Your task to perform on an android device: Clear the shopping cart on bestbuy.com. Add "bose quietcomfort 35" to the cart on bestbuy.com, then select checkout. Image 0: 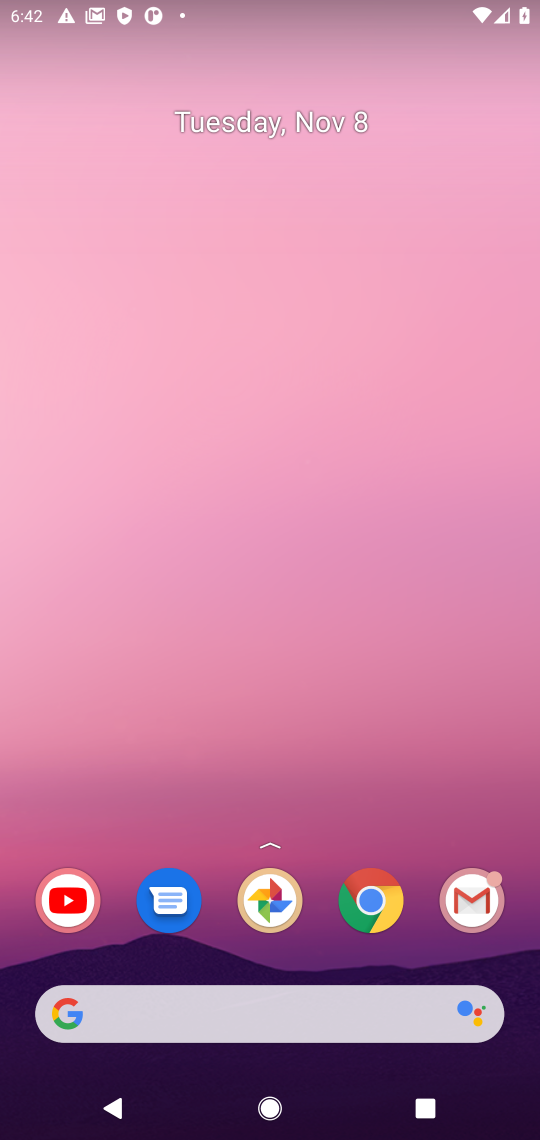
Step 0: click (396, 904)
Your task to perform on an android device: Clear the shopping cart on bestbuy.com. Add "bose quietcomfort 35" to the cart on bestbuy.com, then select checkout. Image 1: 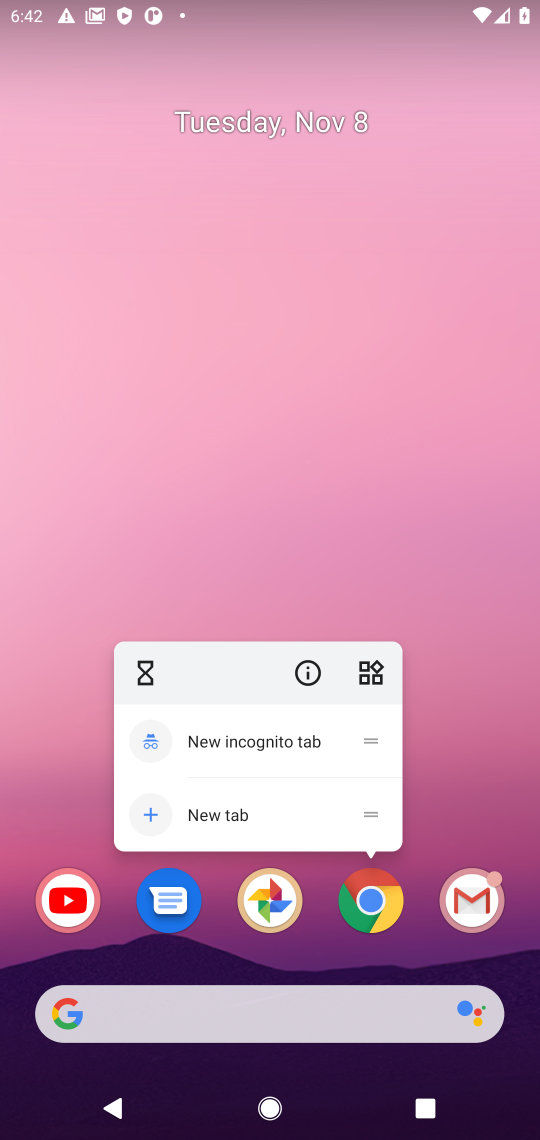
Step 1: click (426, 897)
Your task to perform on an android device: Clear the shopping cart on bestbuy.com. Add "bose quietcomfort 35" to the cart on bestbuy.com, then select checkout. Image 2: 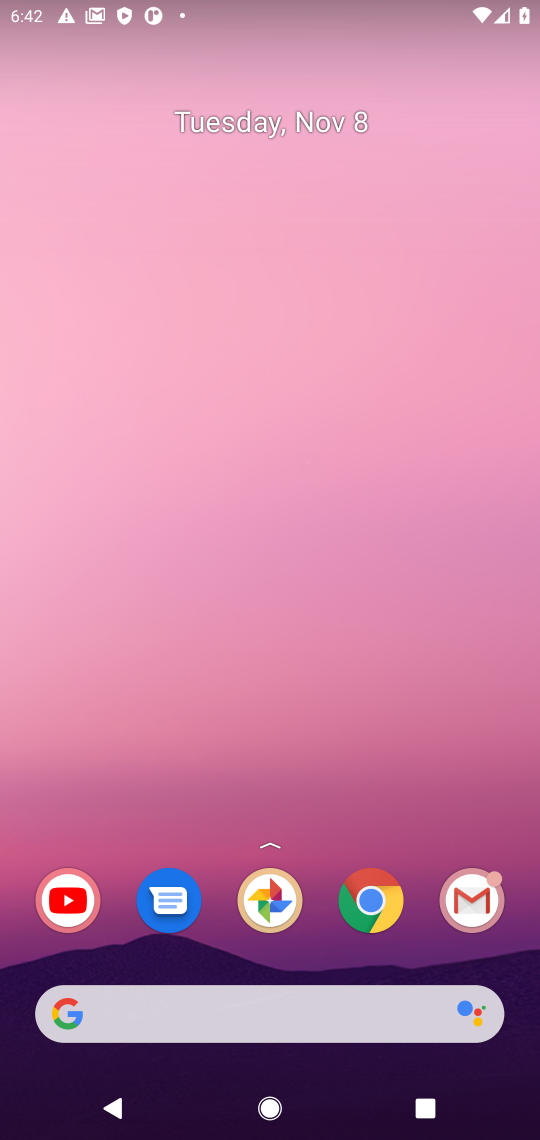
Step 2: click (371, 919)
Your task to perform on an android device: Clear the shopping cart on bestbuy.com. Add "bose quietcomfort 35" to the cart on bestbuy.com, then select checkout. Image 3: 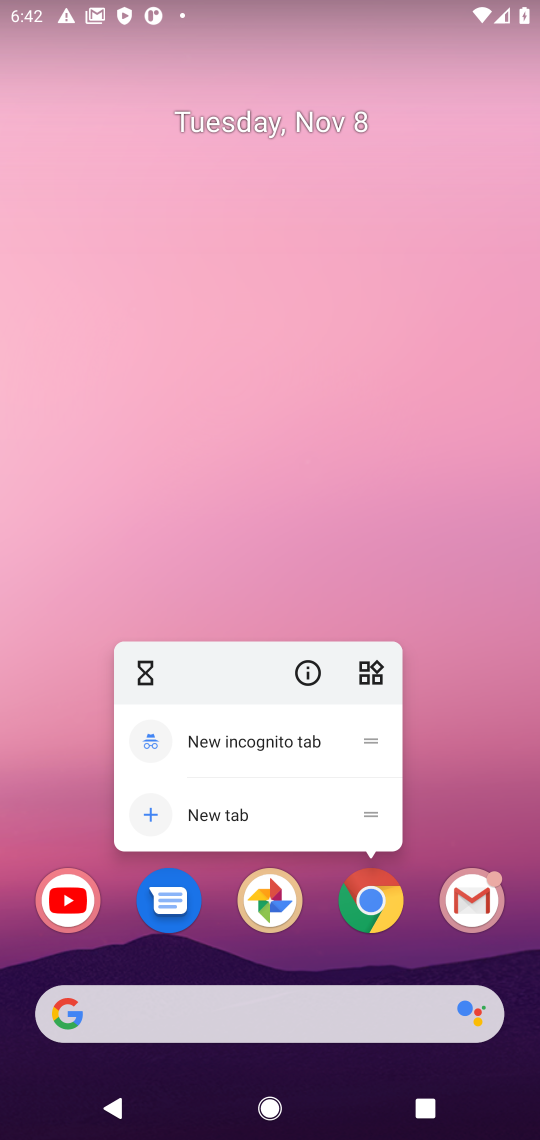
Step 3: click (347, 907)
Your task to perform on an android device: Clear the shopping cart on bestbuy.com. Add "bose quietcomfort 35" to the cart on bestbuy.com, then select checkout. Image 4: 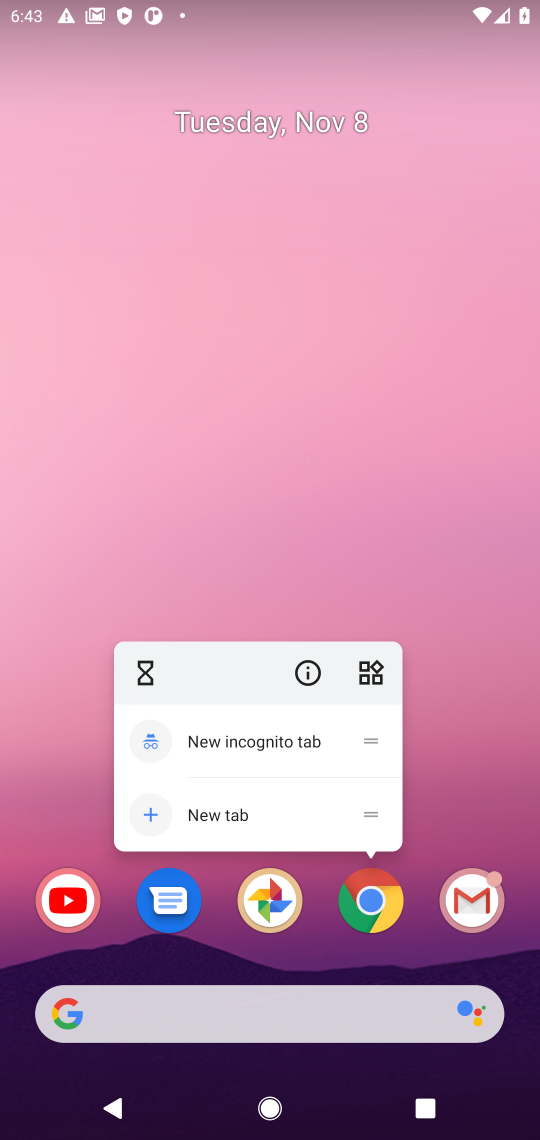
Step 4: click (361, 907)
Your task to perform on an android device: Clear the shopping cart on bestbuy.com. Add "bose quietcomfort 35" to the cart on bestbuy.com, then select checkout. Image 5: 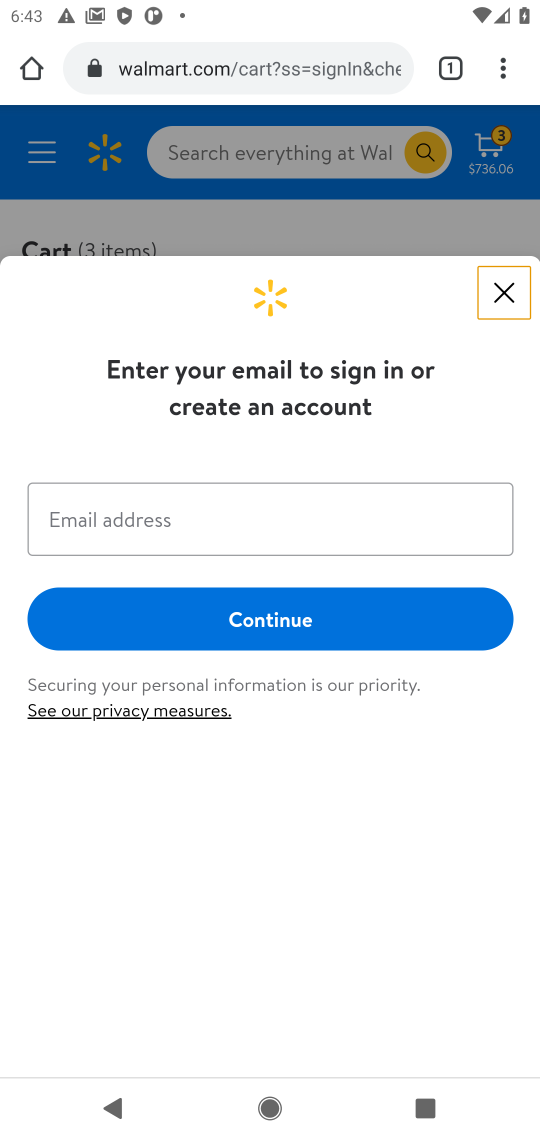
Step 5: click (503, 286)
Your task to perform on an android device: Clear the shopping cart on bestbuy.com. Add "bose quietcomfort 35" to the cart on bestbuy.com, then select checkout. Image 6: 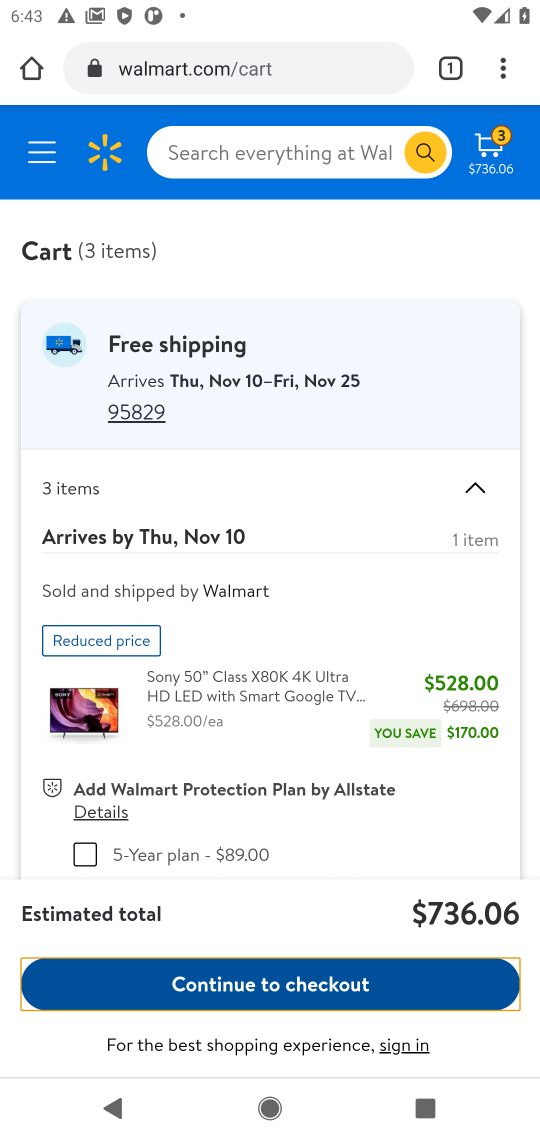
Step 6: click (237, 74)
Your task to perform on an android device: Clear the shopping cart on bestbuy.com. Add "bose quietcomfort 35" to the cart on bestbuy.com, then select checkout. Image 7: 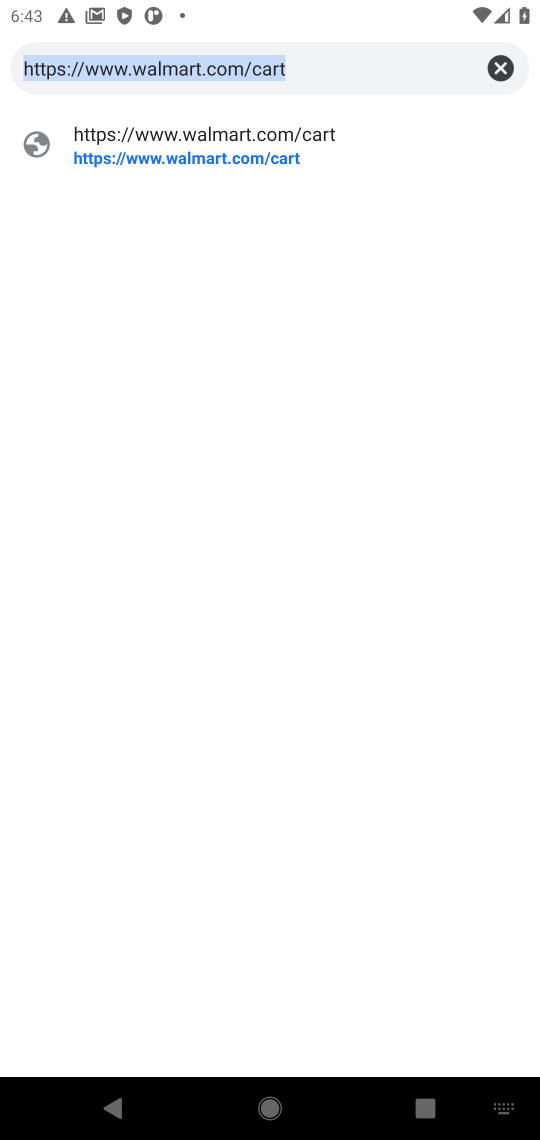
Step 7: type "bestbuy"
Your task to perform on an android device: Clear the shopping cart on bestbuy.com. Add "bose quietcomfort 35" to the cart on bestbuy.com, then select checkout. Image 8: 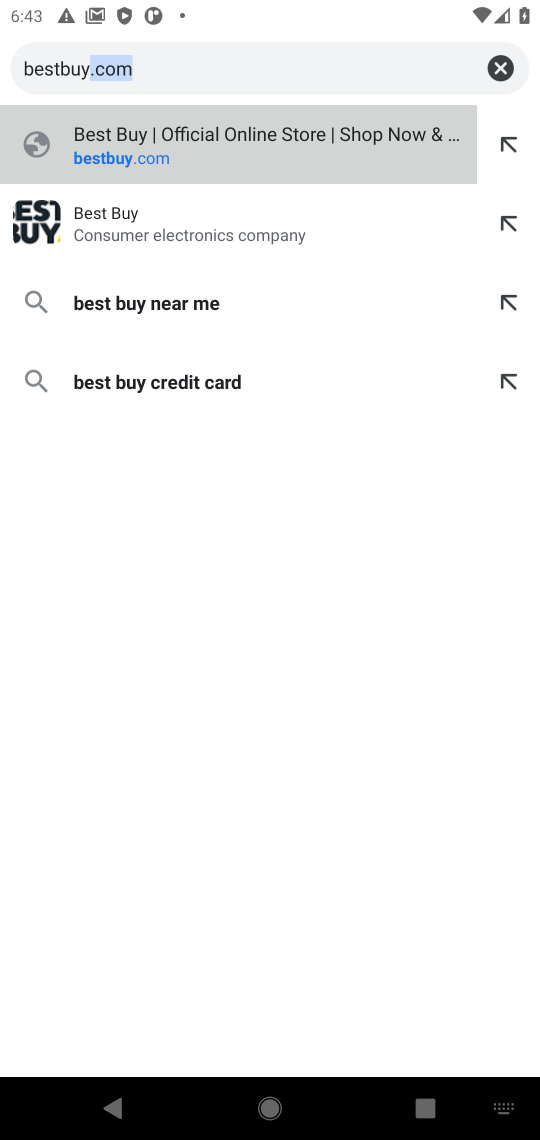
Step 8: type ""
Your task to perform on an android device: Clear the shopping cart on bestbuy.com. Add "bose quietcomfort 35" to the cart on bestbuy.com, then select checkout. Image 9: 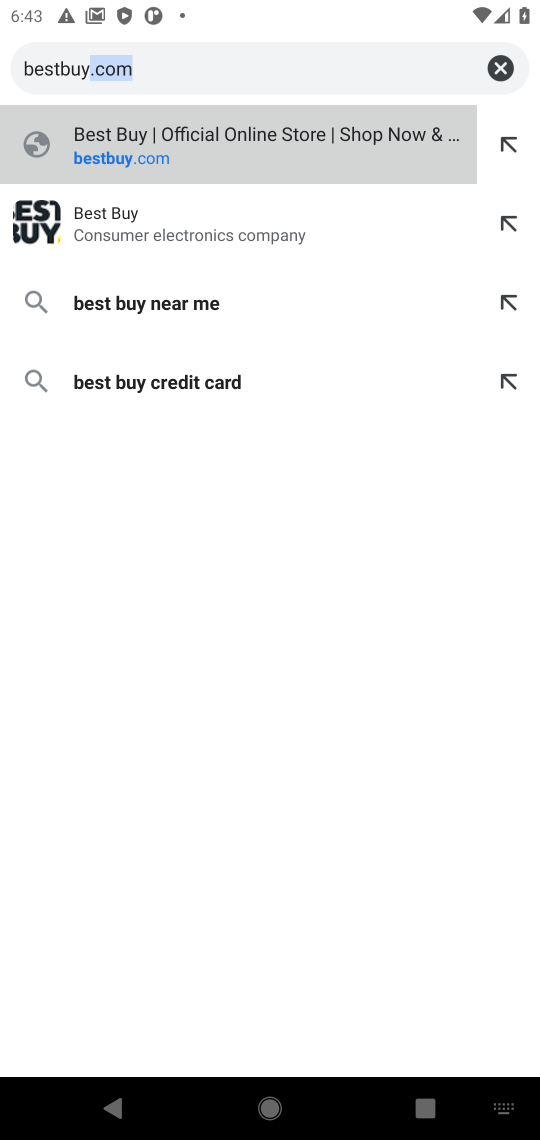
Step 9: click (127, 230)
Your task to perform on an android device: Clear the shopping cart on bestbuy.com. Add "bose quietcomfort 35" to the cart on bestbuy.com, then select checkout. Image 10: 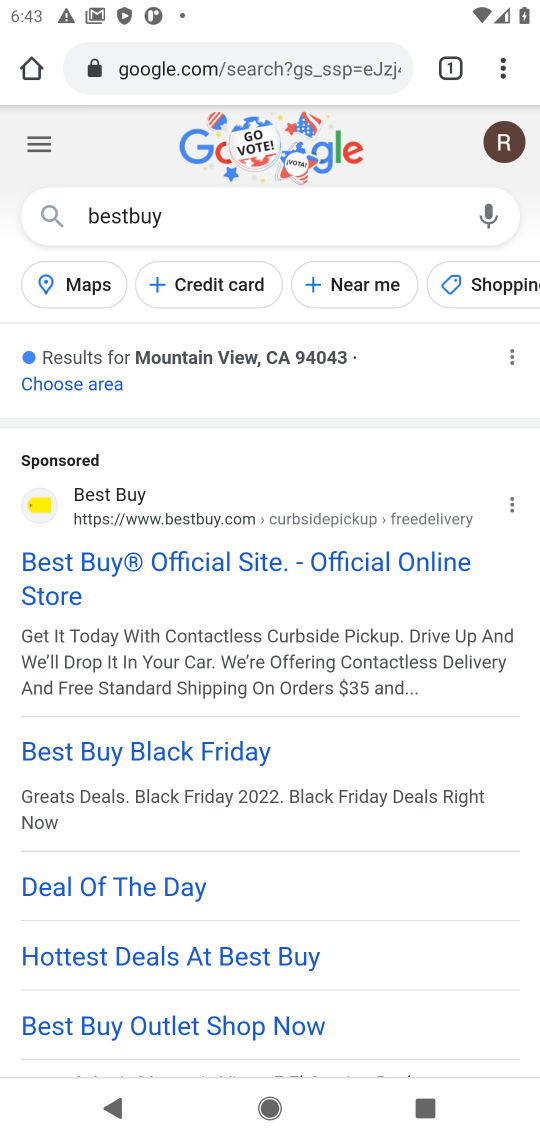
Step 10: drag from (119, 852) to (180, 294)
Your task to perform on an android device: Clear the shopping cart on bestbuy.com. Add "bose quietcomfort 35" to the cart on bestbuy.com, then select checkout. Image 11: 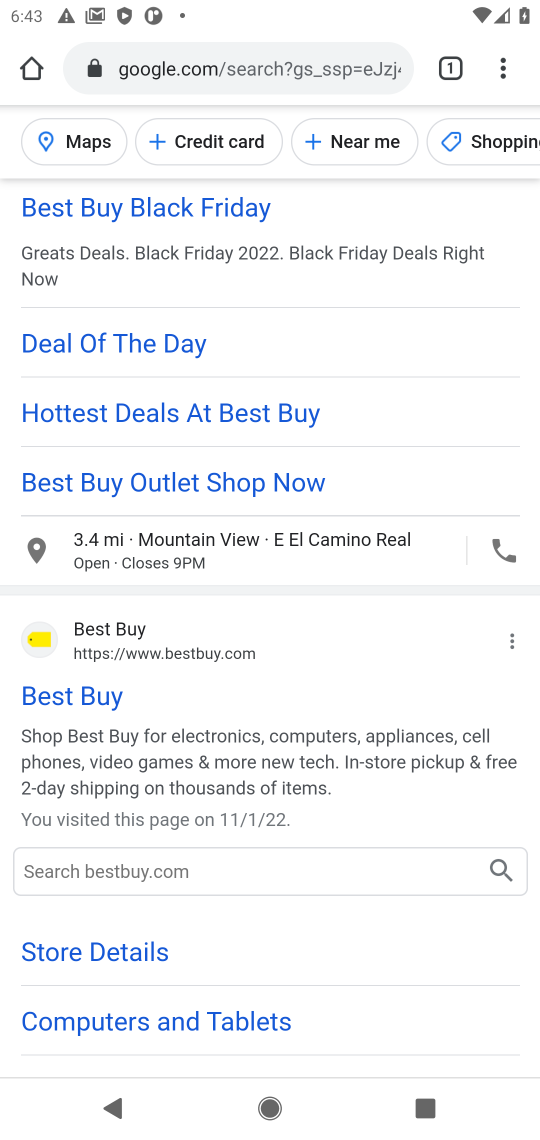
Step 11: click (77, 689)
Your task to perform on an android device: Clear the shopping cart on bestbuy.com. Add "bose quietcomfort 35" to the cart on bestbuy.com, then select checkout. Image 12: 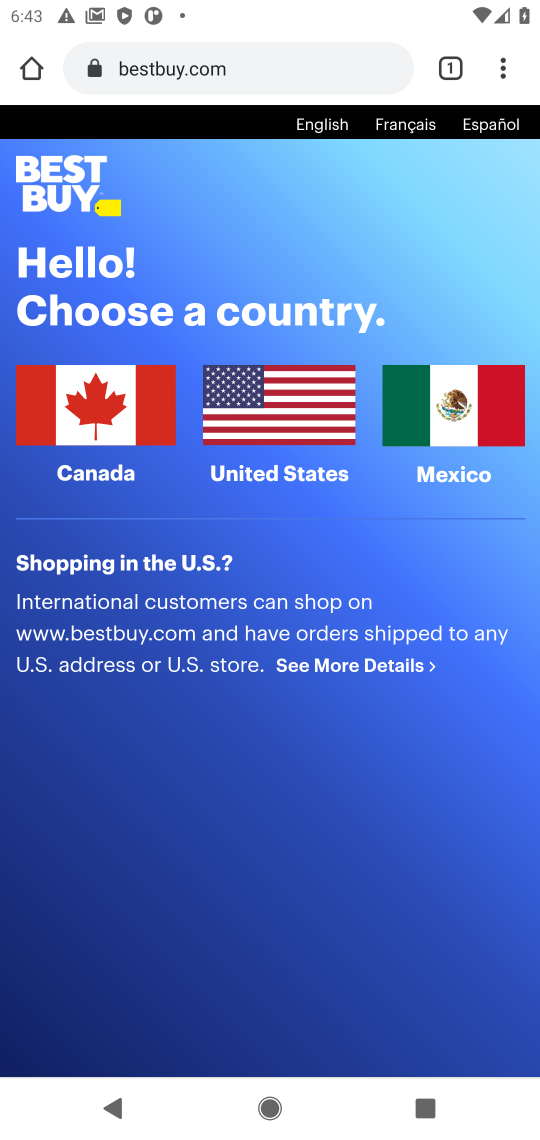
Step 12: click (254, 421)
Your task to perform on an android device: Clear the shopping cart on bestbuy.com. Add "bose quietcomfort 35" to the cart on bestbuy.com, then select checkout. Image 13: 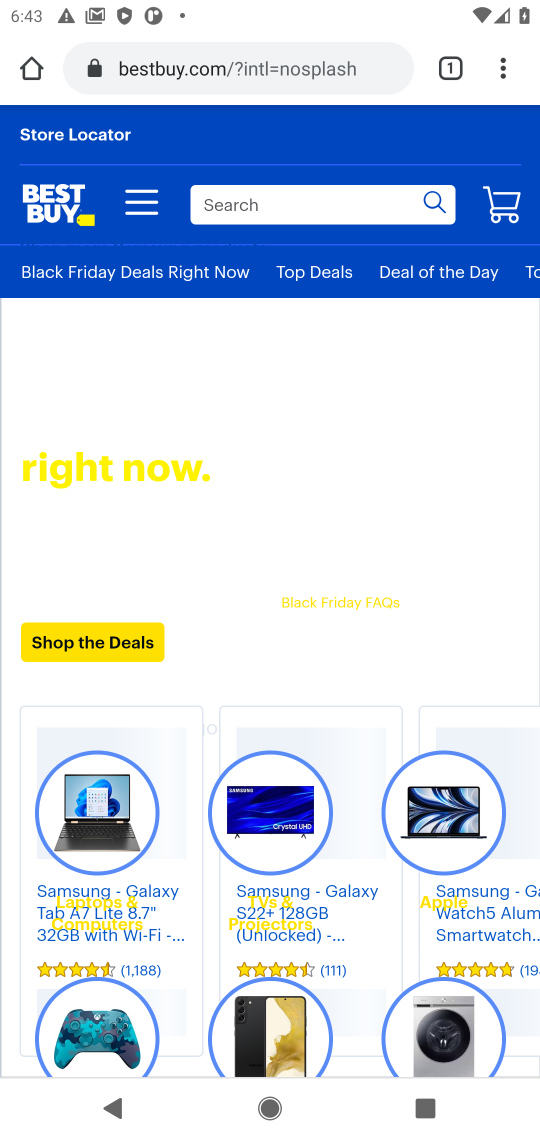
Step 13: click (254, 206)
Your task to perform on an android device: Clear the shopping cart on bestbuy.com. Add "bose quietcomfort 35" to the cart on bestbuy.com, then select checkout. Image 14: 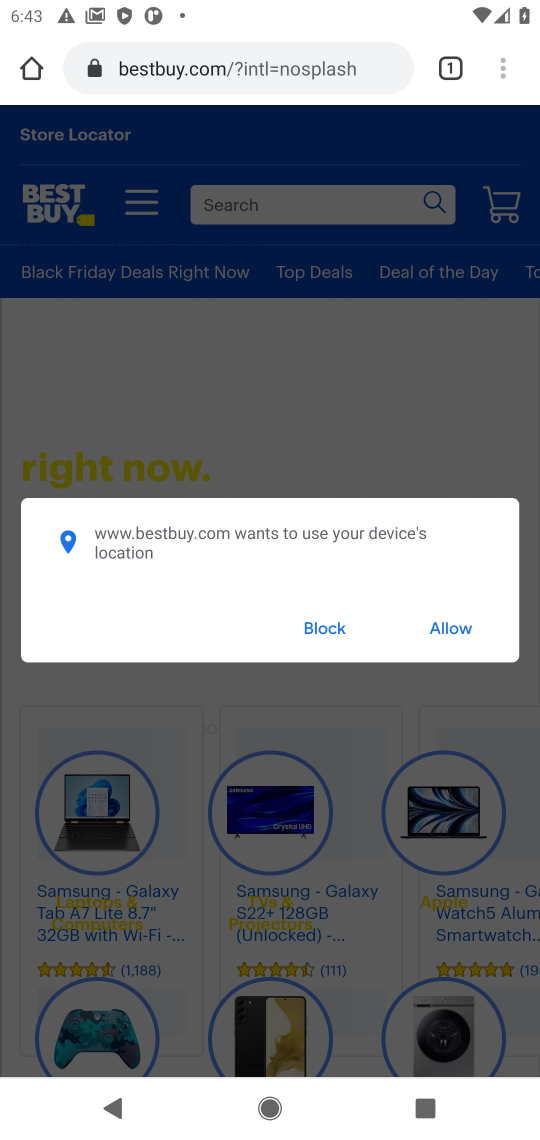
Step 14: type "bose eq"
Your task to perform on an android device: Clear the shopping cart on bestbuy.com. Add "bose quietcomfort 35" to the cart on bestbuy.com, then select checkout. Image 15: 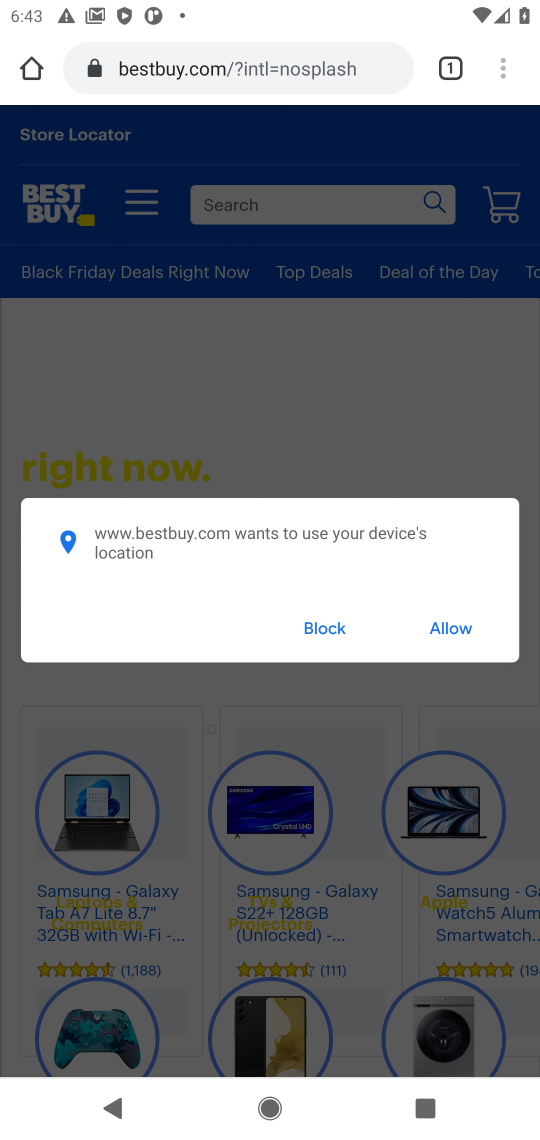
Step 15: click (443, 622)
Your task to perform on an android device: Clear the shopping cart on bestbuy.com. Add "bose quietcomfort 35" to the cart on bestbuy.com, then select checkout. Image 16: 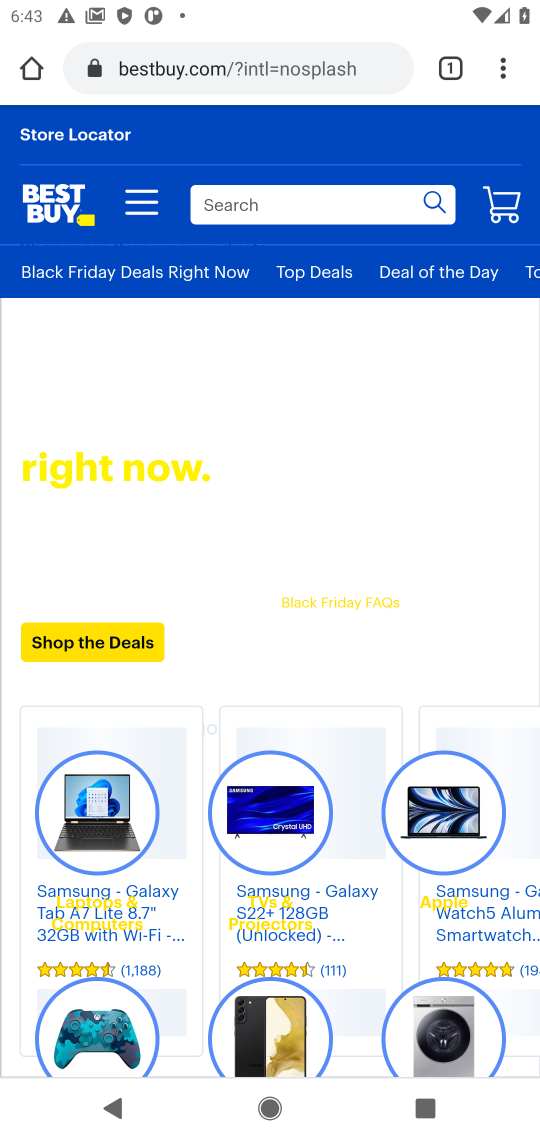
Step 16: click (438, 628)
Your task to perform on an android device: Clear the shopping cart on bestbuy.com. Add "bose quietcomfort 35" to the cart on bestbuy.com, then select checkout. Image 17: 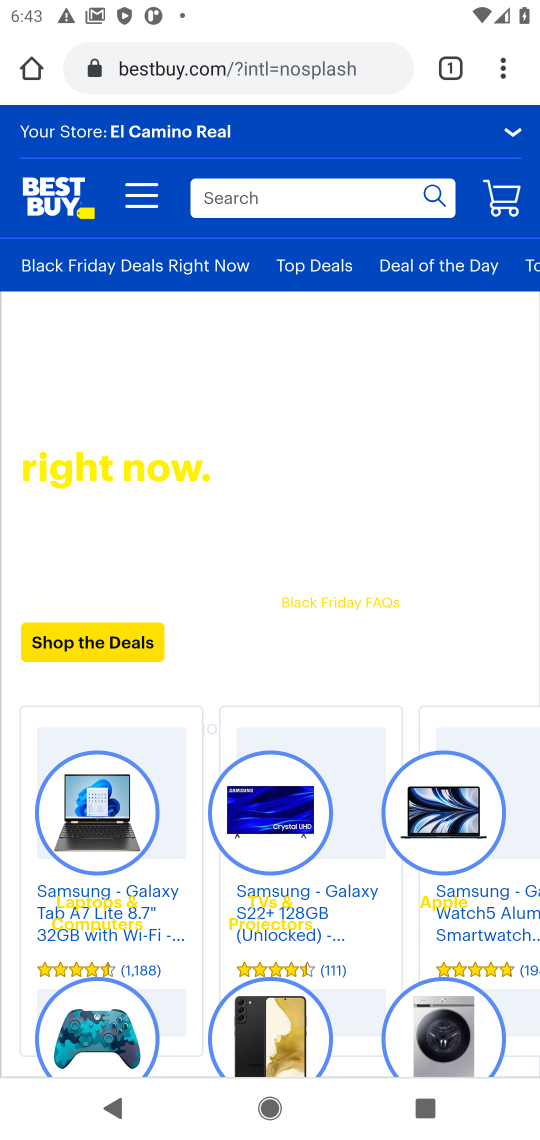
Step 17: click (207, 196)
Your task to perform on an android device: Clear the shopping cart on bestbuy.com. Add "bose quietcomfort 35" to the cart on bestbuy.com, then select checkout. Image 18: 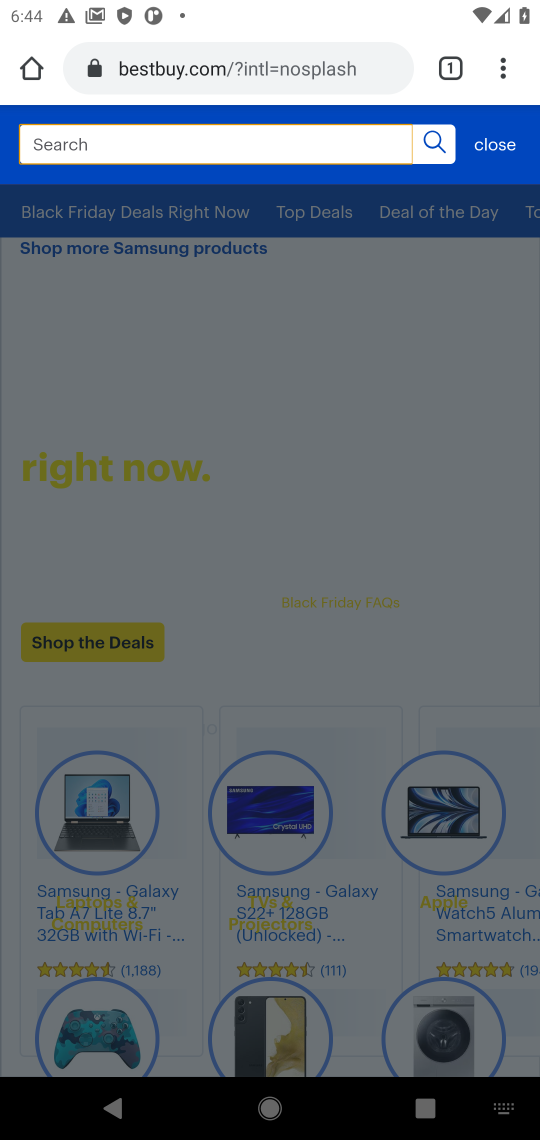
Step 18: type "bose quietcomfort 35"
Your task to perform on an android device: Clear the shopping cart on bestbuy.com. Add "bose quietcomfort 35" to the cart on bestbuy.com, then select checkout. Image 19: 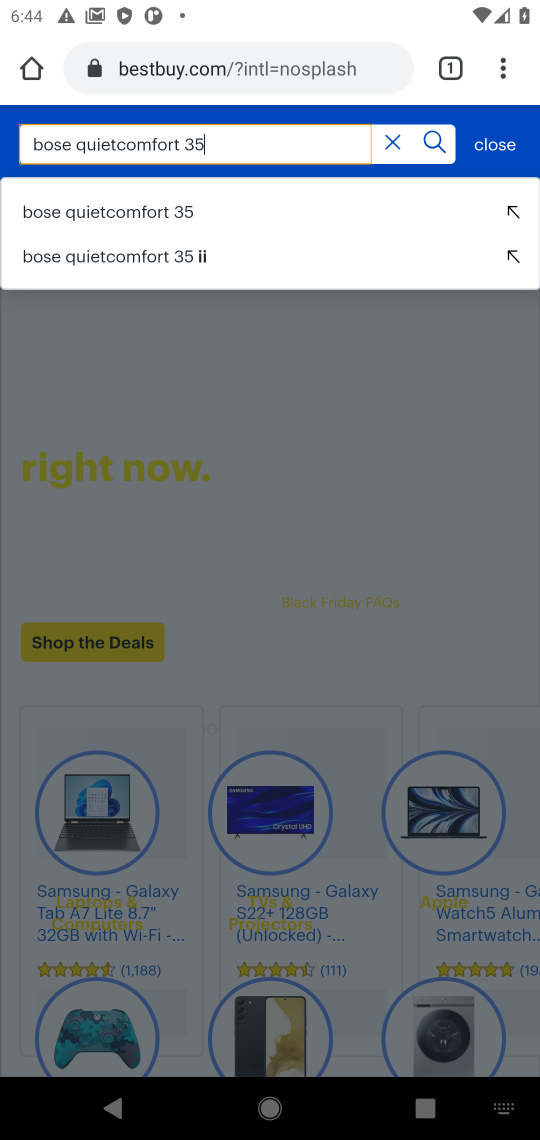
Step 19: click (110, 212)
Your task to perform on an android device: Clear the shopping cart on bestbuy.com. Add "bose quietcomfort 35" to the cart on bestbuy.com, then select checkout. Image 20: 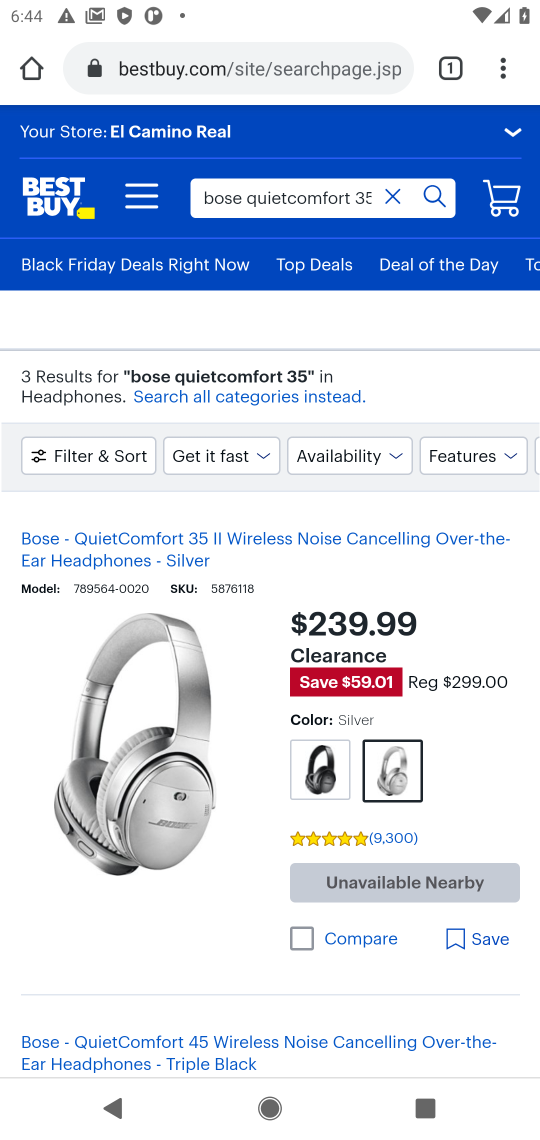
Step 20: drag from (154, 790) to (338, 530)
Your task to perform on an android device: Clear the shopping cart on bestbuy.com. Add "bose quietcomfort 35" to the cart on bestbuy.com, then select checkout. Image 21: 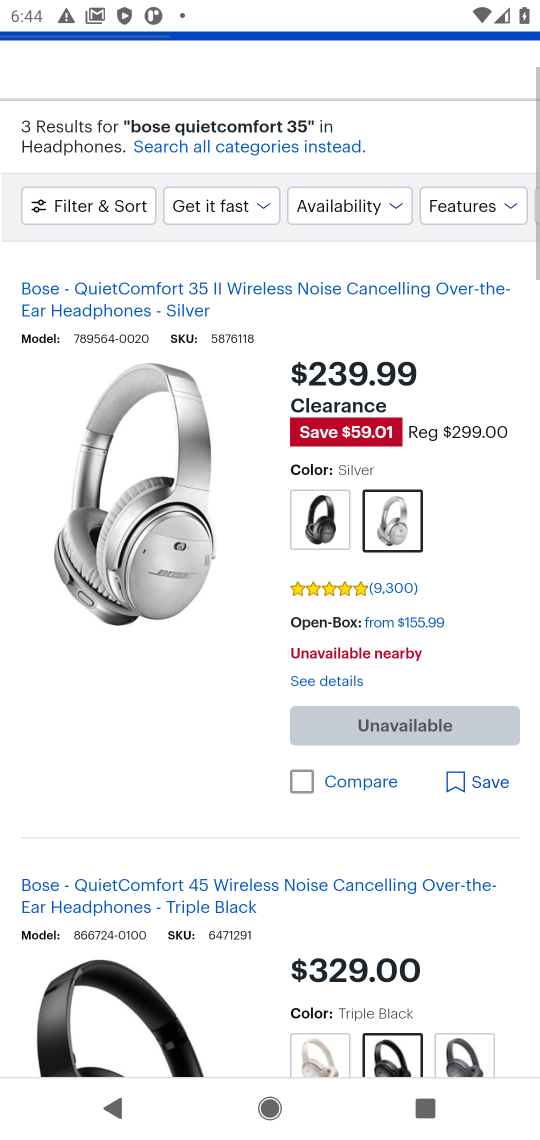
Step 21: click (124, 483)
Your task to perform on an android device: Clear the shopping cart on bestbuy.com. Add "bose quietcomfort 35" to the cart on bestbuy.com, then select checkout. Image 22: 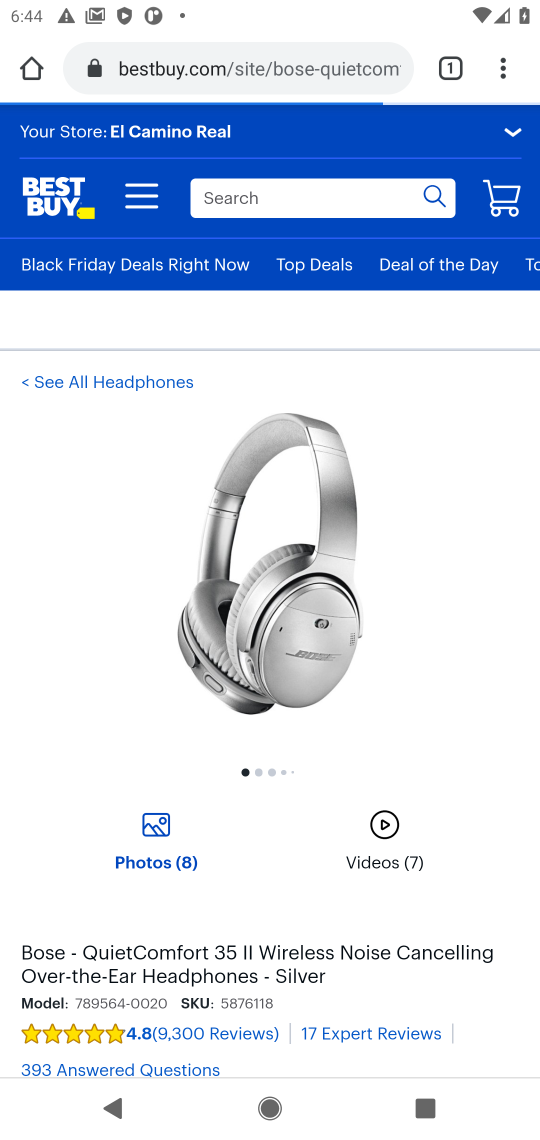
Step 22: drag from (274, 851) to (397, 356)
Your task to perform on an android device: Clear the shopping cart on bestbuy.com. Add "bose quietcomfort 35" to the cart on bestbuy.com, then select checkout. Image 23: 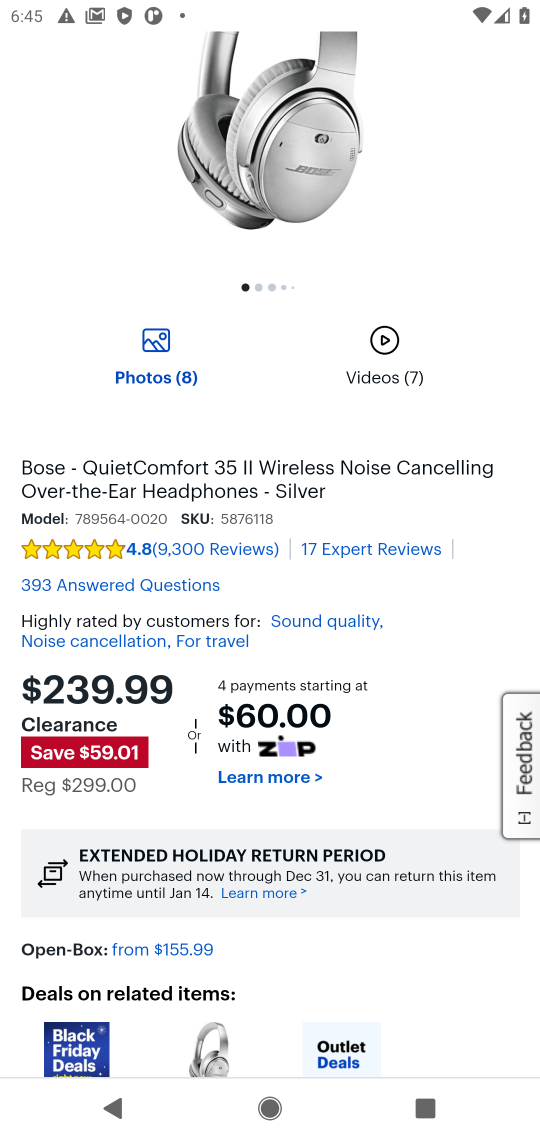
Step 23: drag from (289, 970) to (339, 360)
Your task to perform on an android device: Clear the shopping cart on bestbuy.com. Add "bose quietcomfort 35" to the cart on bestbuy.com, then select checkout. Image 24: 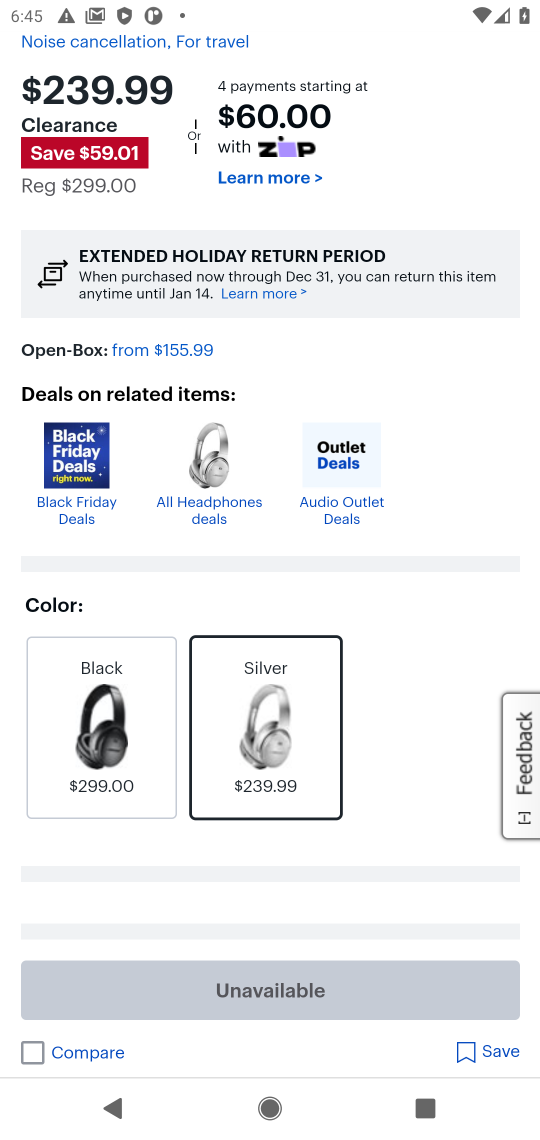
Step 24: drag from (297, 913) to (384, 314)
Your task to perform on an android device: Clear the shopping cart on bestbuy.com. Add "bose quietcomfort 35" to the cart on bestbuy.com, then select checkout. Image 25: 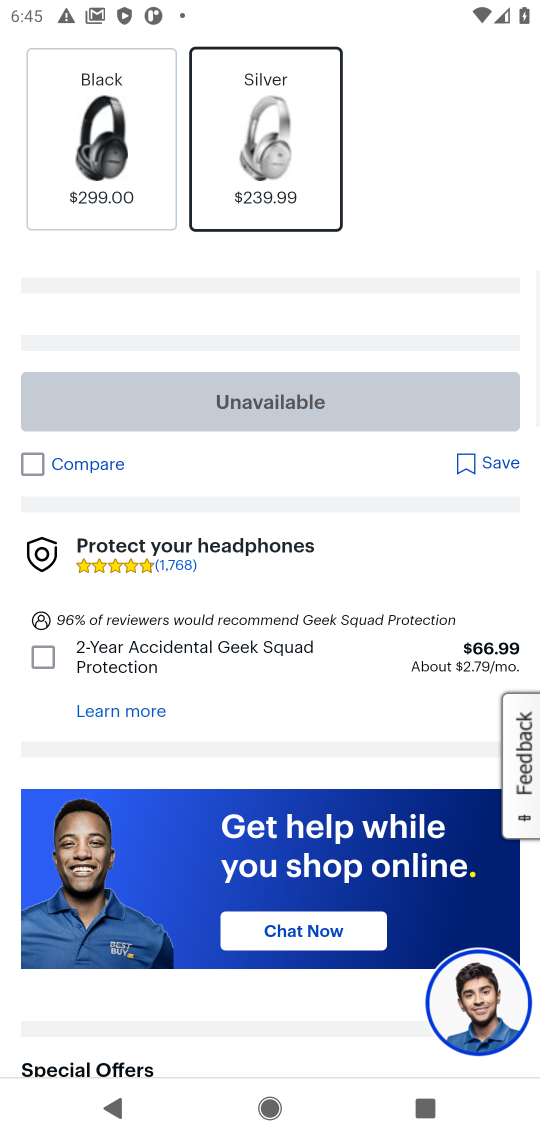
Step 25: drag from (409, 340) to (441, 892)
Your task to perform on an android device: Clear the shopping cart on bestbuy.com. Add "bose quietcomfort 35" to the cart on bestbuy.com, then select checkout. Image 26: 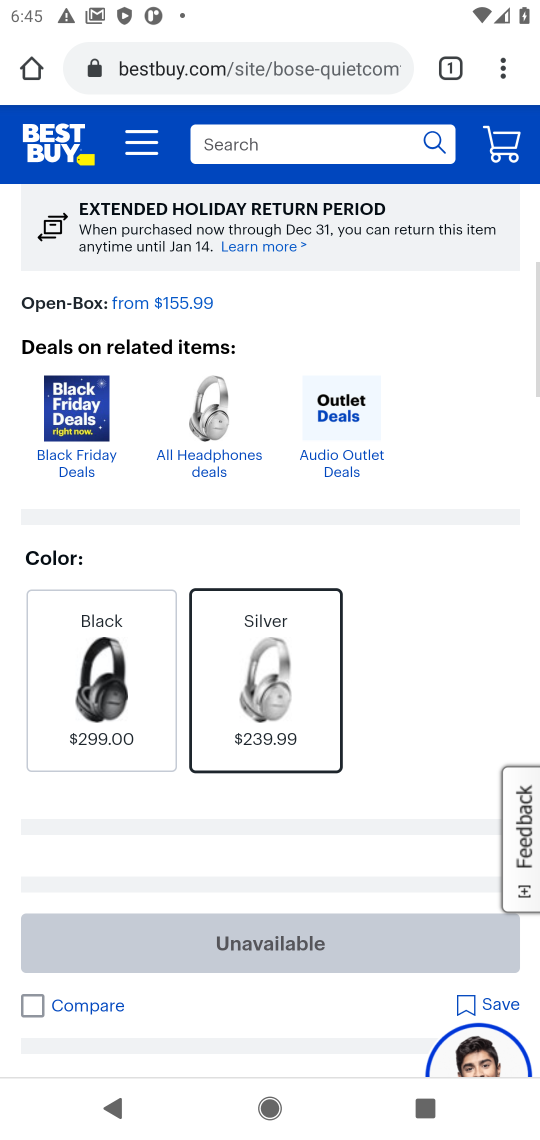
Step 26: drag from (300, 400) to (254, 920)
Your task to perform on an android device: Clear the shopping cart on bestbuy.com. Add "bose quietcomfort 35" to the cart on bestbuy.com, then select checkout. Image 27: 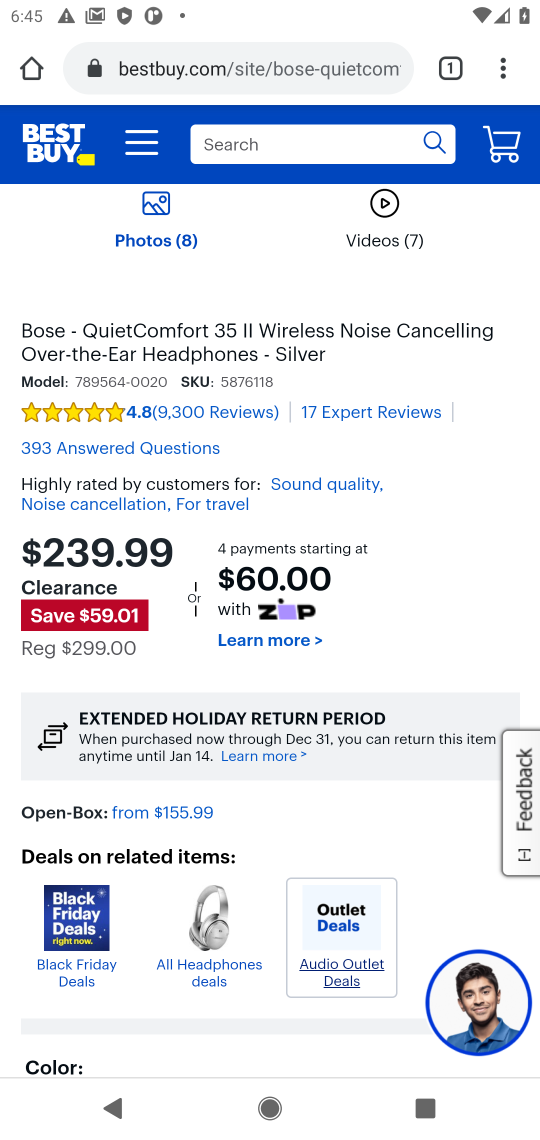
Step 27: drag from (252, 320) to (298, 863)
Your task to perform on an android device: Clear the shopping cart on bestbuy.com. Add "bose quietcomfort 35" to the cart on bestbuy.com, then select checkout. Image 28: 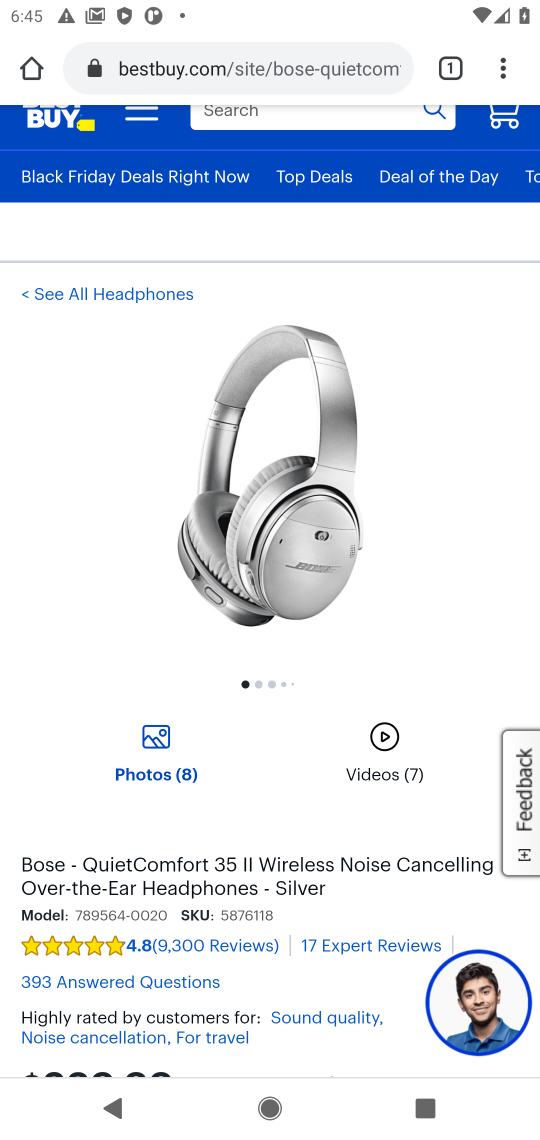
Step 28: click (272, 450)
Your task to perform on an android device: Clear the shopping cart on bestbuy.com. Add "bose quietcomfort 35" to the cart on bestbuy.com, then select checkout. Image 29: 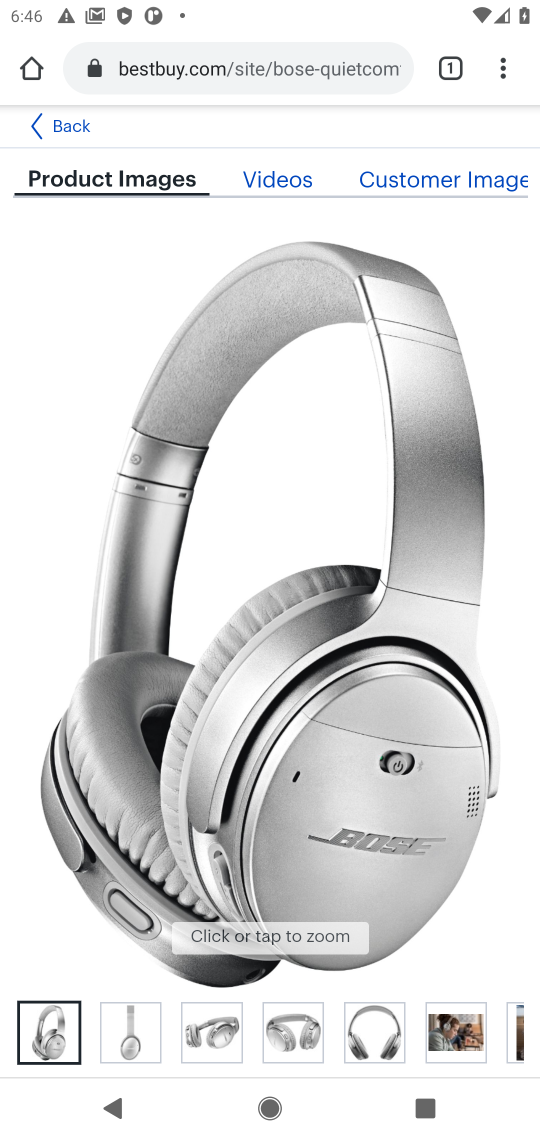
Step 29: drag from (336, 892) to (343, 314)
Your task to perform on an android device: Clear the shopping cart on bestbuy.com. Add "bose quietcomfort 35" to the cart on bestbuy.com, then select checkout. Image 30: 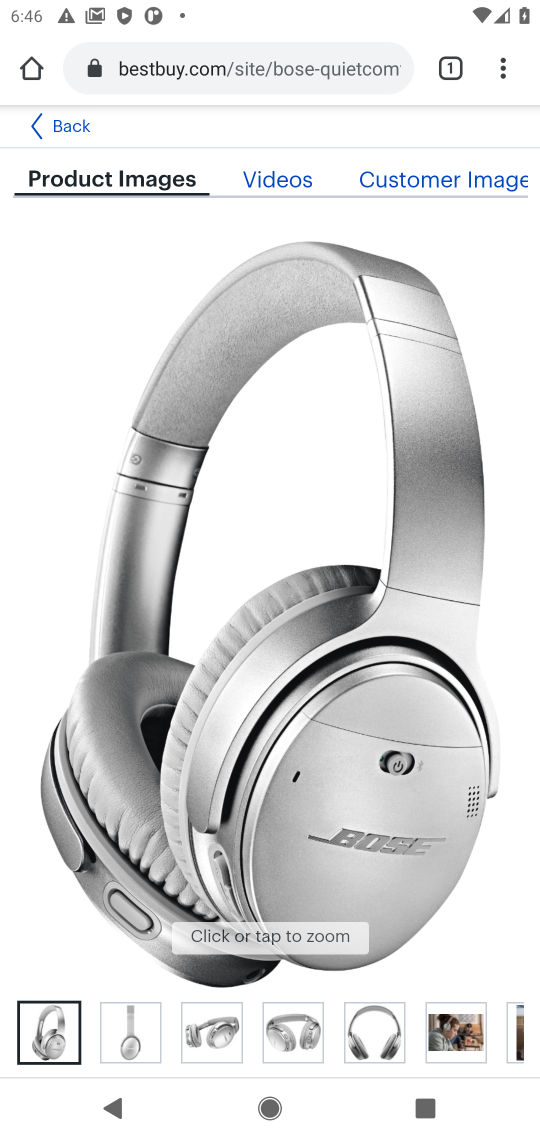
Step 30: drag from (339, 908) to (417, 576)
Your task to perform on an android device: Clear the shopping cart on bestbuy.com. Add "bose quietcomfort 35" to the cart on bestbuy.com, then select checkout. Image 31: 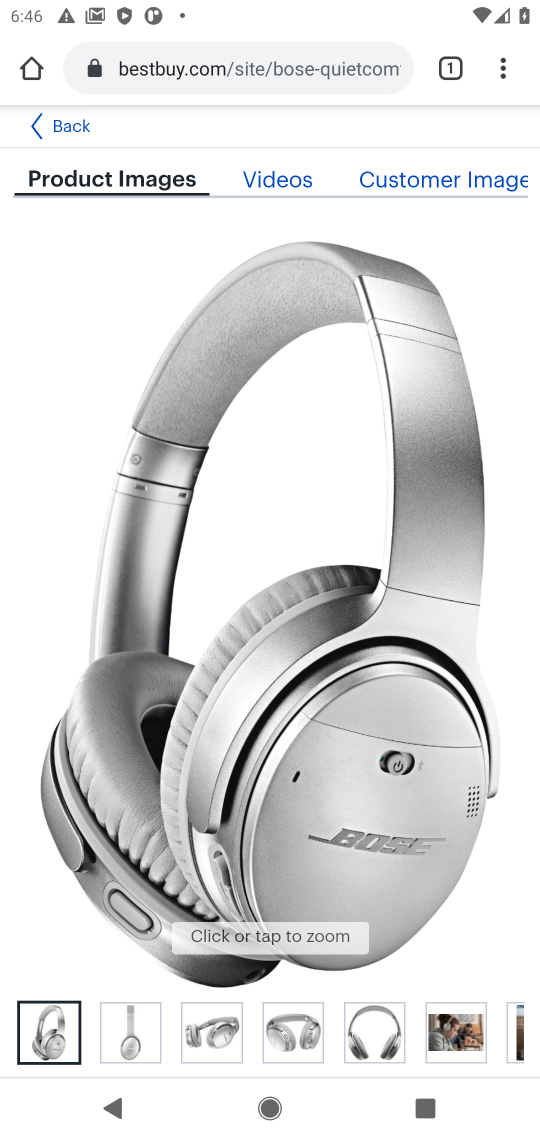
Step 31: press back button
Your task to perform on an android device: Clear the shopping cart on bestbuy.com. Add "bose quietcomfort 35" to the cart on bestbuy.com, then select checkout. Image 32: 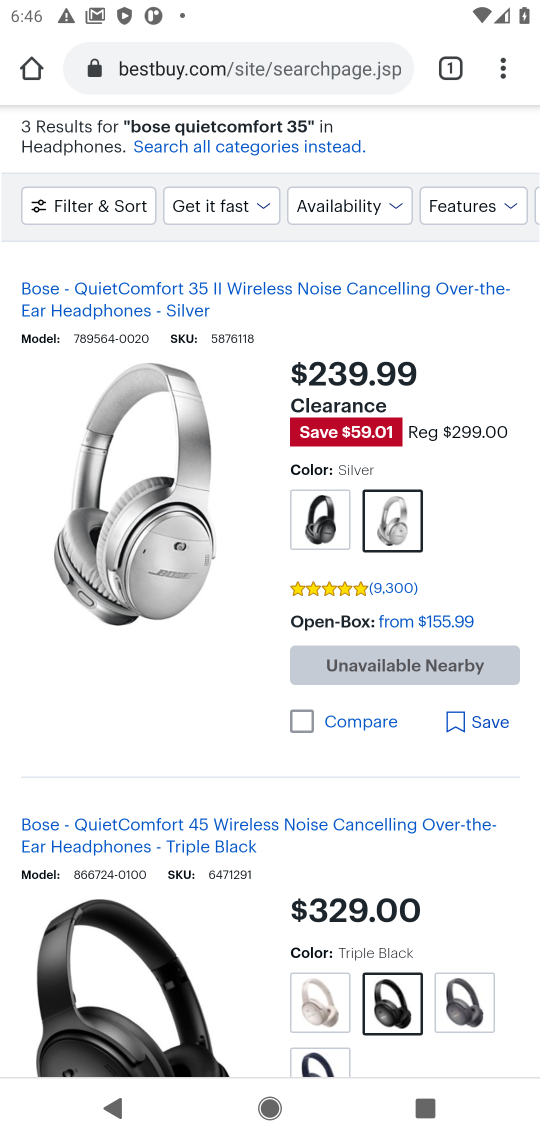
Step 32: drag from (318, 891) to (314, 288)
Your task to perform on an android device: Clear the shopping cart on bestbuy.com. Add "bose quietcomfort 35" to the cart on bestbuy.com, then select checkout. Image 33: 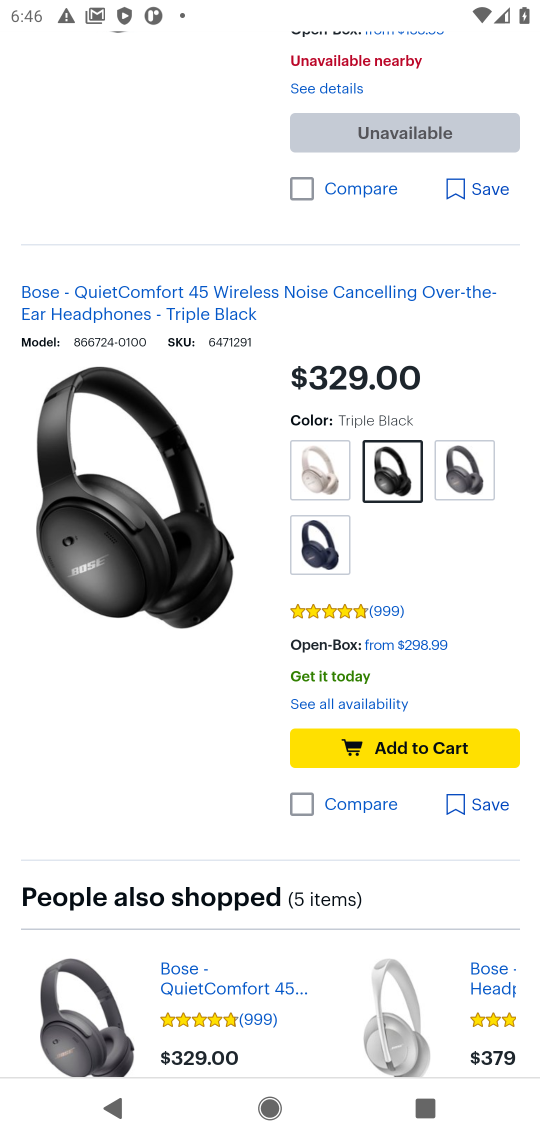
Step 33: drag from (249, 1029) to (322, 319)
Your task to perform on an android device: Clear the shopping cart on bestbuy.com. Add "bose quietcomfort 35" to the cart on bestbuy.com, then select checkout. Image 34: 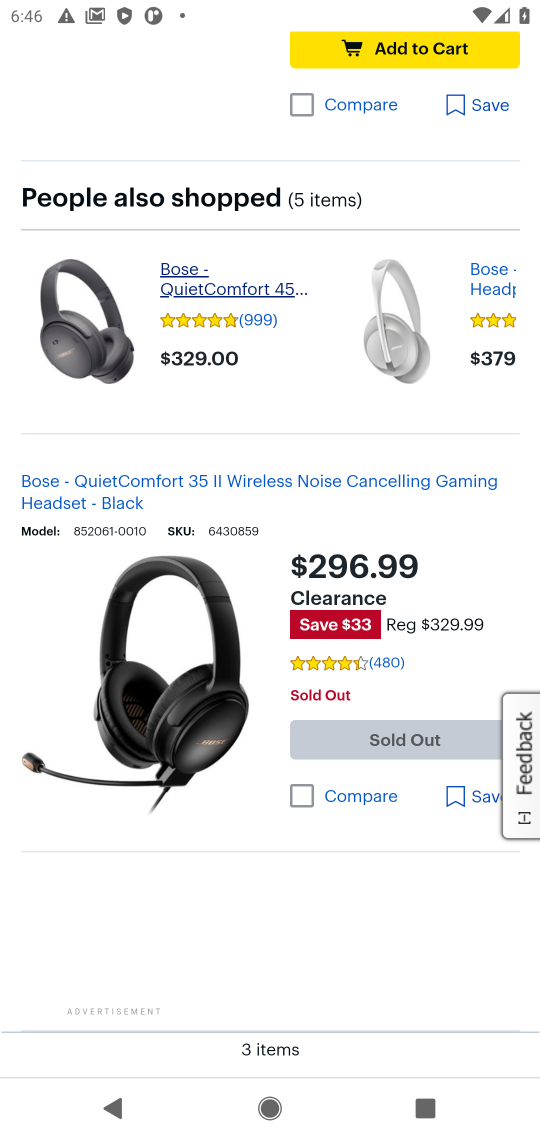
Step 34: click (176, 728)
Your task to perform on an android device: Clear the shopping cart on bestbuy.com. Add "bose quietcomfort 35" to the cart on bestbuy.com, then select checkout. Image 35: 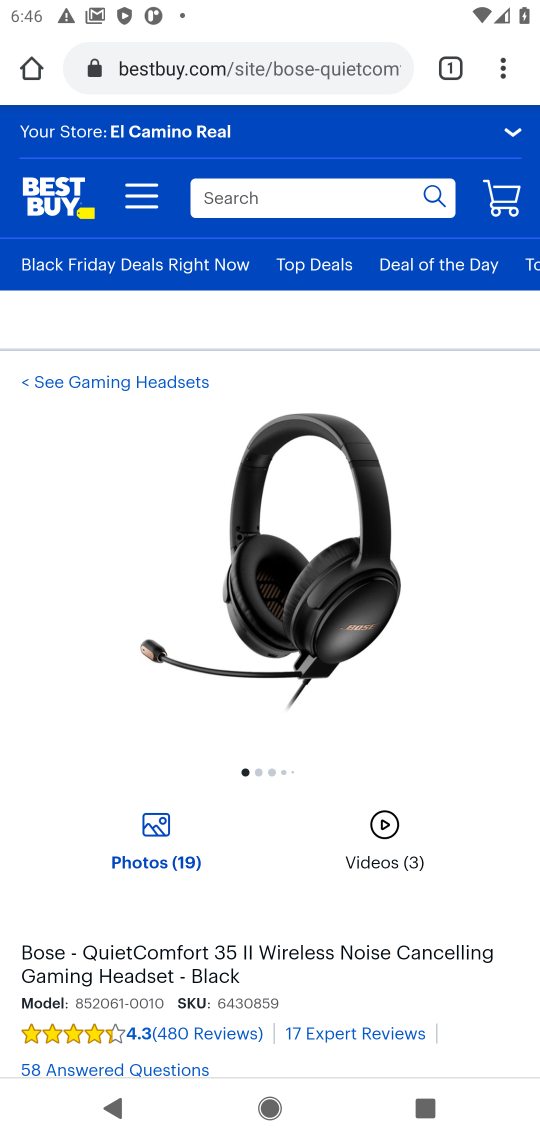
Step 35: drag from (239, 822) to (274, 313)
Your task to perform on an android device: Clear the shopping cart on bestbuy.com. Add "bose quietcomfort 35" to the cart on bestbuy.com, then select checkout. Image 36: 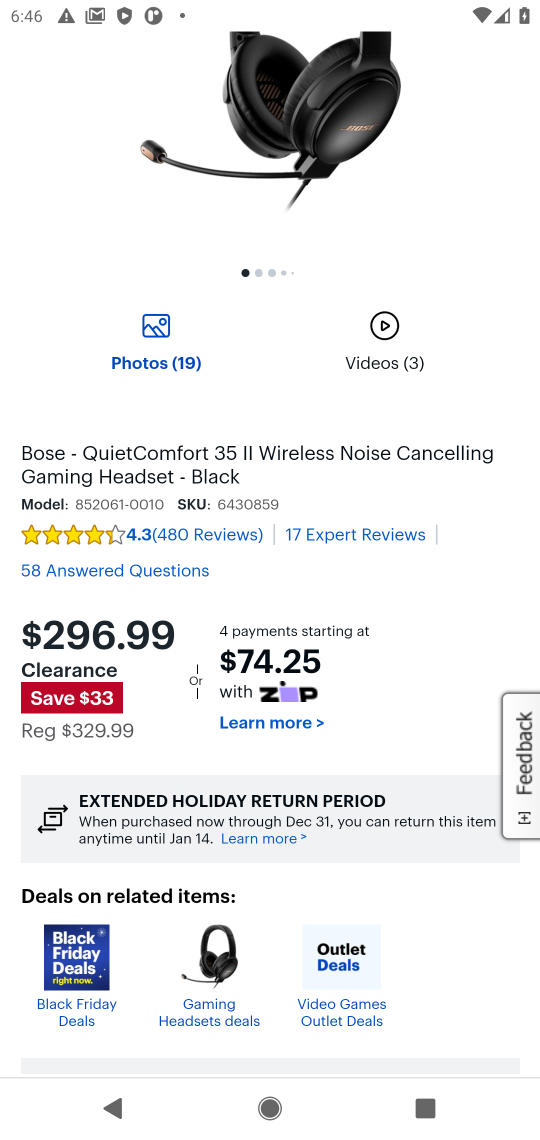
Step 36: drag from (385, 827) to (325, 286)
Your task to perform on an android device: Clear the shopping cart on bestbuy.com. Add "bose quietcomfort 35" to the cart on bestbuy.com, then select checkout. Image 37: 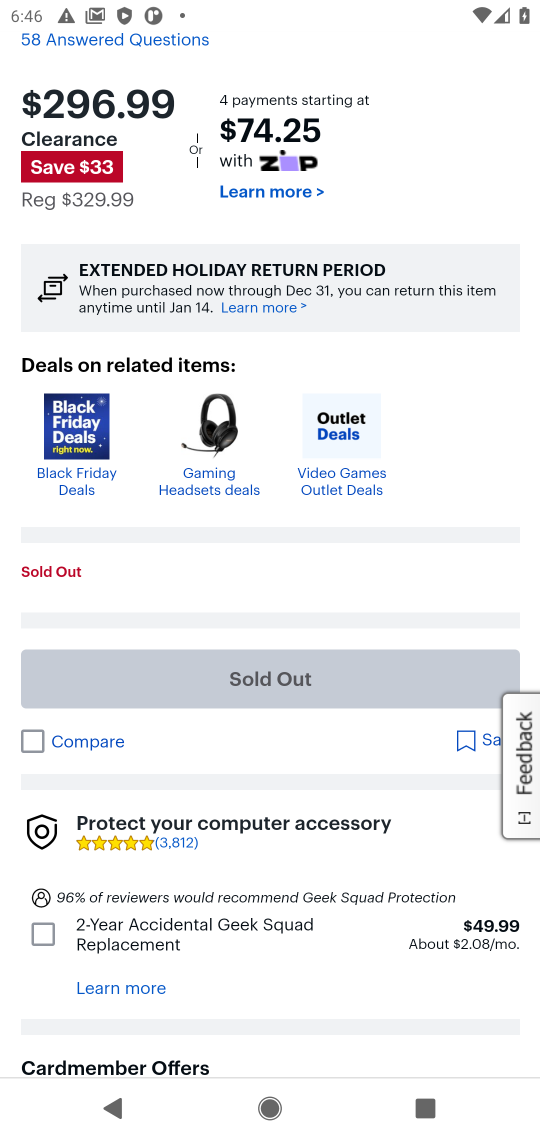
Step 37: drag from (236, 861) to (256, 280)
Your task to perform on an android device: Clear the shopping cart on bestbuy.com. Add "bose quietcomfort 35" to the cart on bestbuy.com, then select checkout. Image 38: 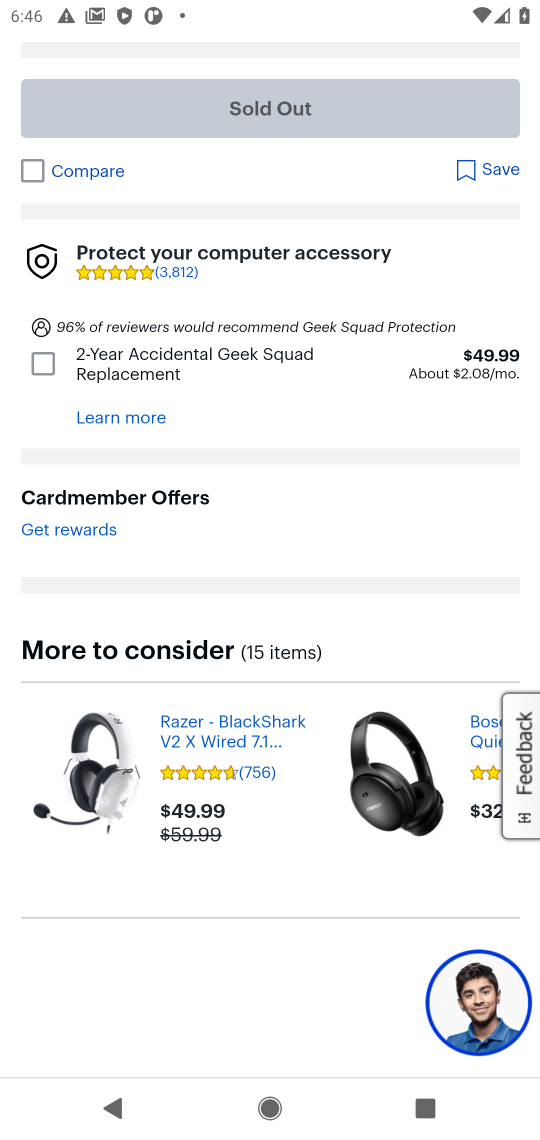
Step 38: drag from (256, 277) to (333, 791)
Your task to perform on an android device: Clear the shopping cart on bestbuy.com. Add "bose quietcomfort 35" to the cart on bestbuy.com, then select checkout. Image 39: 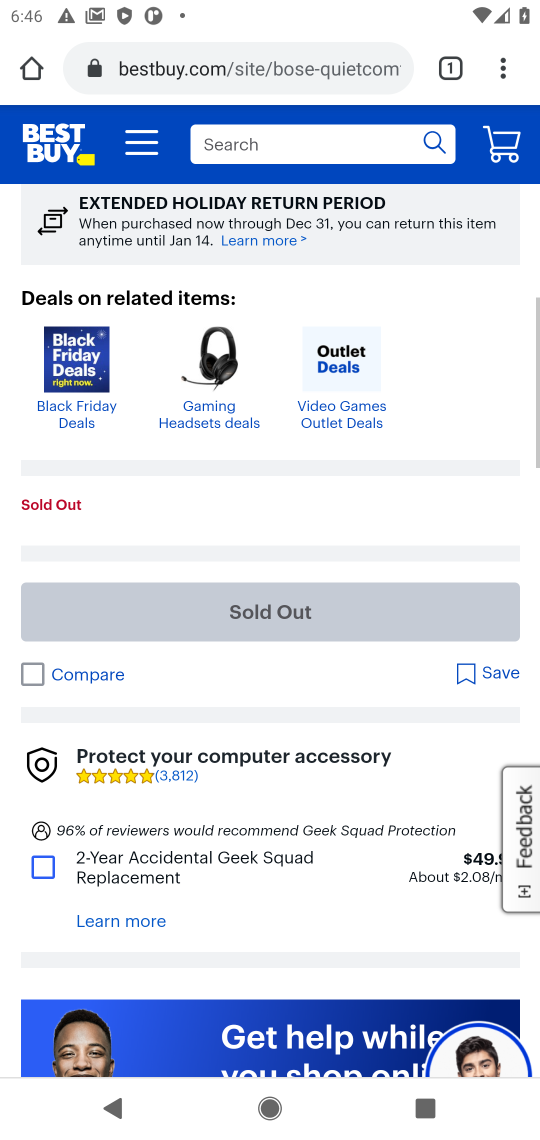
Step 39: drag from (308, 327) to (290, 908)
Your task to perform on an android device: Clear the shopping cart on bestbuy.com. Add "bose quietcomfort 35" to the cart on bestbuy.com, then select checkout. Image 40: 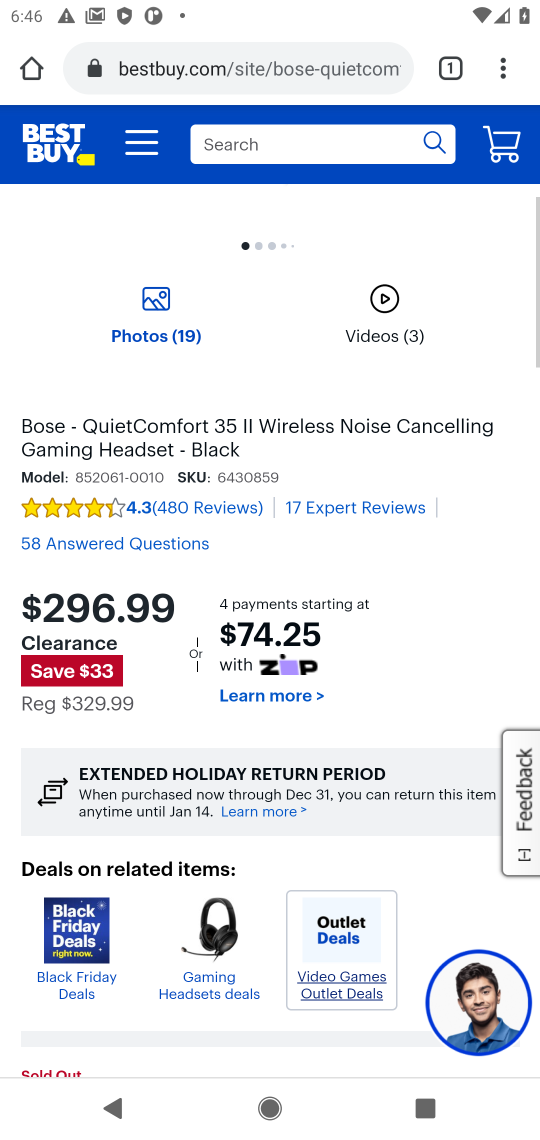
Step 40: drag from (222, 363) to (41, 847)
Your task to perform on an android device: Clear the shopping cart on bestbuy.com. Add "bose quietcomfort 35" to the cart on bestbuy.com, then select checkout. Image 41: 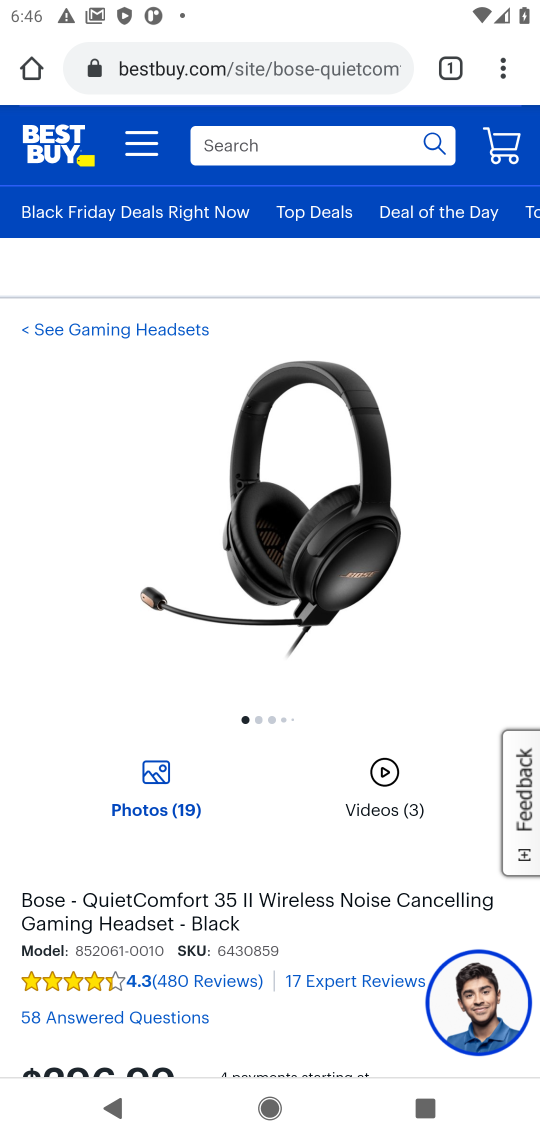
Step 41: click (250, 466)
Your task to perform on an android device: Clear the shopping cart on bestbuy.com. Add "bose quietcomfort 35" to the cart on bestbuy.com, then select checkout. Image 42: 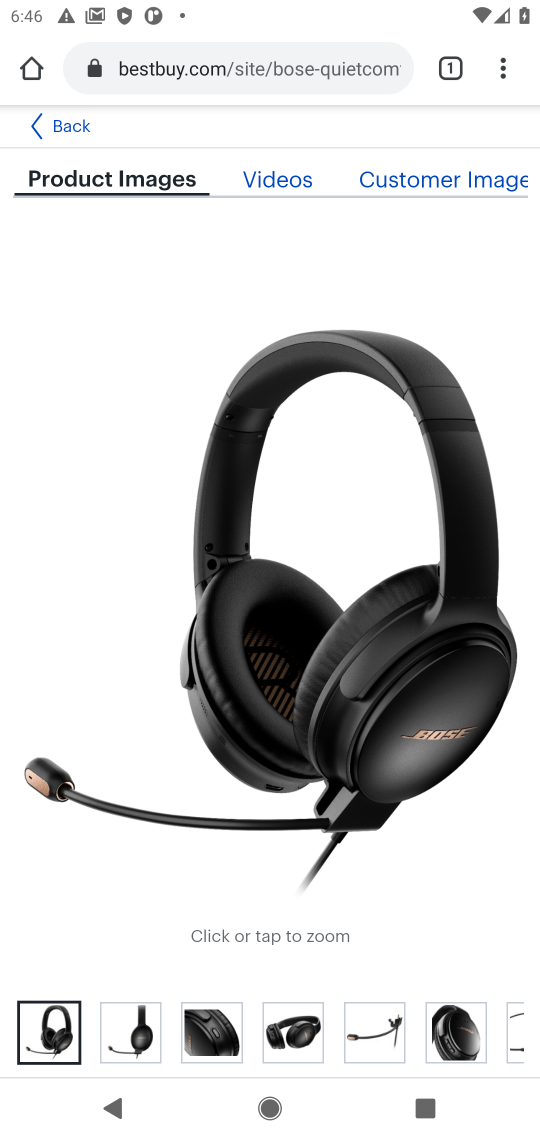
Step 42: drag from (369, 840) to (336, 373)
Your task to perform on an android device: Clear the shopping cart on bestbuy.com. Add "bose quietcomfort 35" to the cart on bestbuy.com, then select checkout. Image 43: 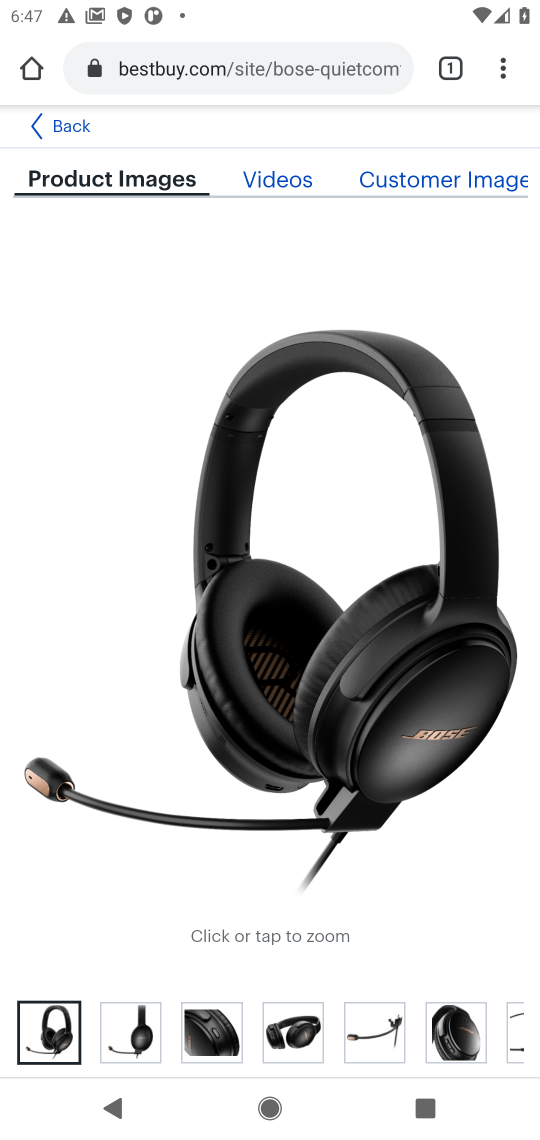
Step 43: press back button
Your task to perform on an android device: Clear the shopping cart on bestbuy.com. Add "bose quietcomfort 35" to the cart on bestbuy.com, then select checkout. Image 44: 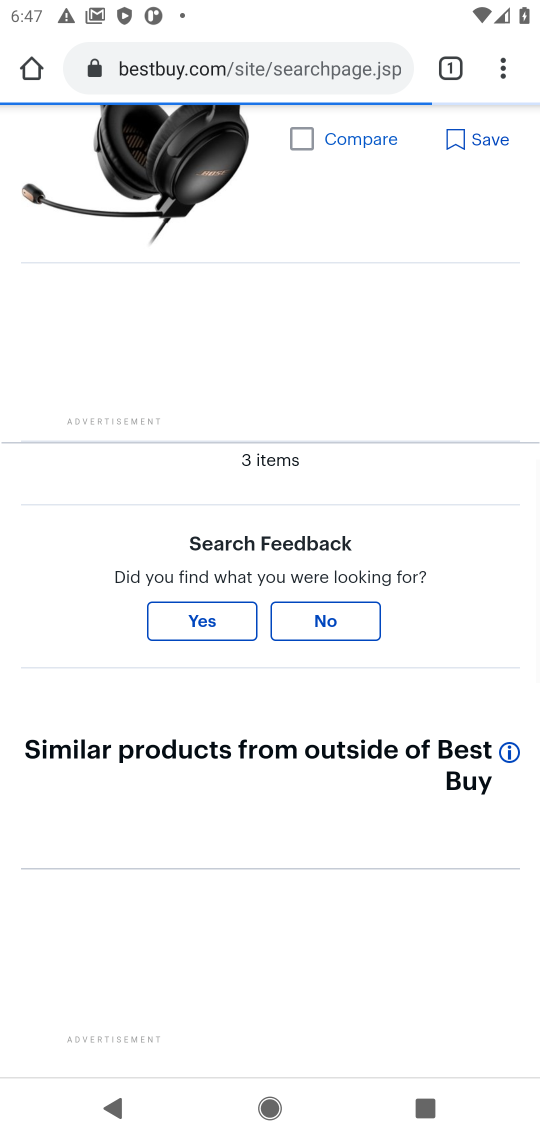
Step 44: drag from (169, 872) to (241, 421)
Your task to perform on an android device: Clear the shopping cart on bestbuy.com. Add "bose quietcomfort 35" to the cart on bestbuy.com, then select checkout. Image 45: 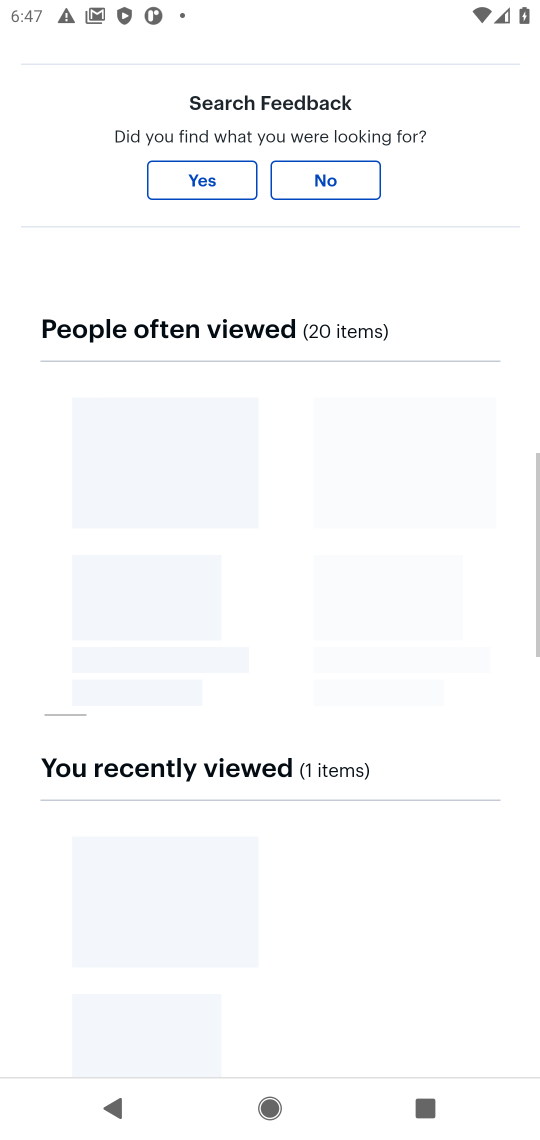
Step 45: press back button
Your task to perform on an android device: Clear the shopping cart on bestbuy.com. Add "bose quietcomfort 35" to the cart on bestbuy.com, then select checkout. Image 46: 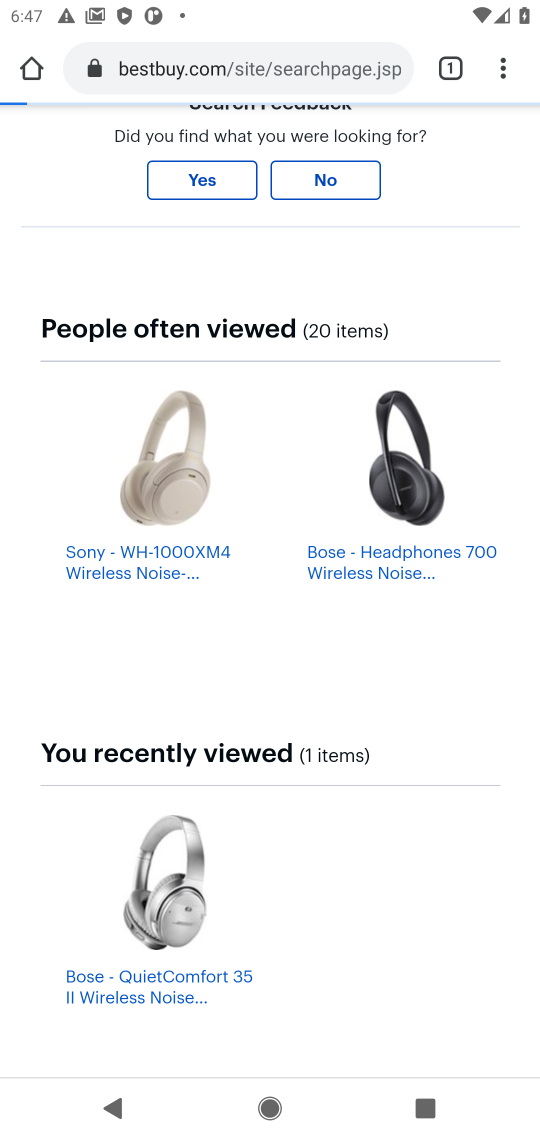
Step 46: drag from (361, 947) to (274, 395)
Your task to perform on an android device: Clear the shopping cart on bestbuy.com. Add "bose quietcomfort 35" to the cart on bestbuy.com, then select checkout. Image 47: 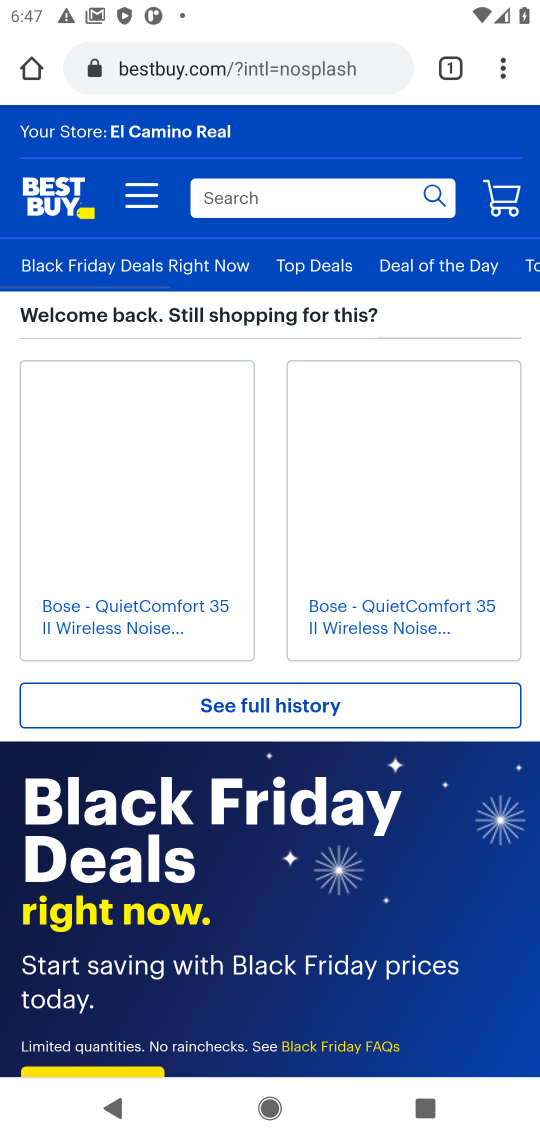
Step 47: click (326, 740)
Your task to perform on an android device: Clear the shopping cart on bestbuy.com. Add "bose quietcomfort 35" to the cart on bestbuy.com, then select checkout. Image 48: 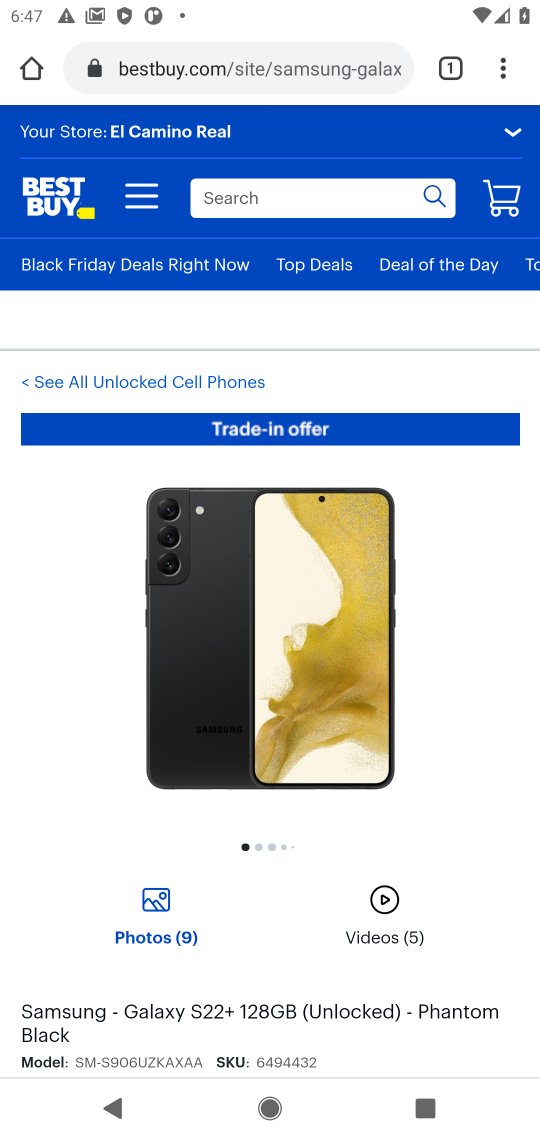
Step 48: press back button
Your task to perform on an android device: Clear the shopping cart on bestbuy.com. Add "bose quietcomfort 35" to the cart on bestbuy.com, then select checkout. Image 49: 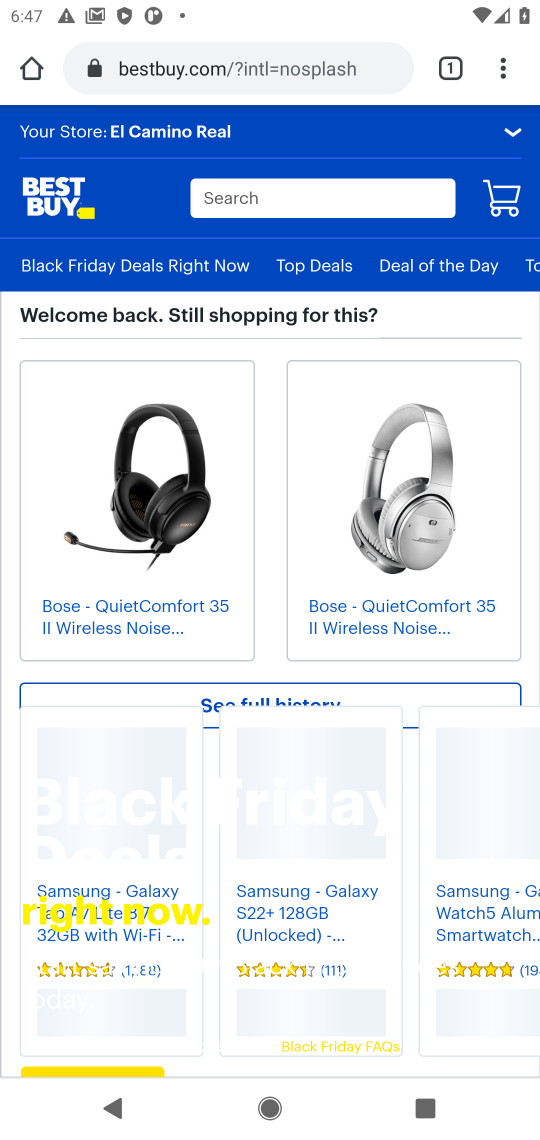
Step 49: click (143, 540)
Your task to perform on an android device: Clear the shopping cart on bestbuy.com. Add "bose quietcomfort 35" to the cart on bestbuy.com, then select checkout. Image 50: 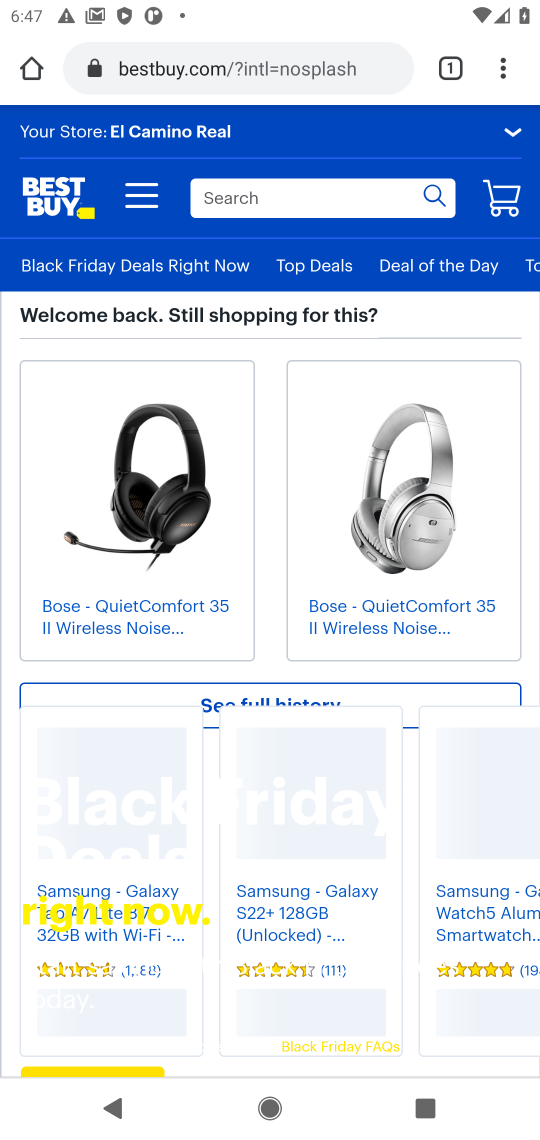
Step 50: click (141, 539)
Your task to perform on an android device: Clear the shopping cart on bestbuy.com. Add "bose quietcomfort 35" to the cart on bestbuy.com, then select checkout. Image 51: 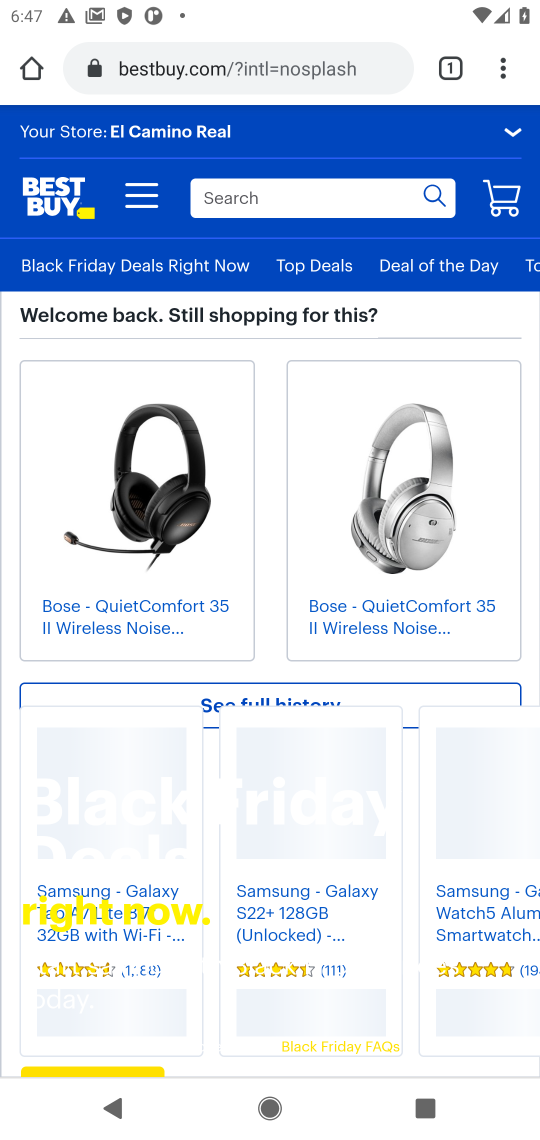
Step 51: click (202, 502)
Your task to perform on an android device: Clear the shopping cart on bestbuy.com. Add "bose quietcomfort 35" to the cart on bestbuy.com, then select checkout. Image 52: 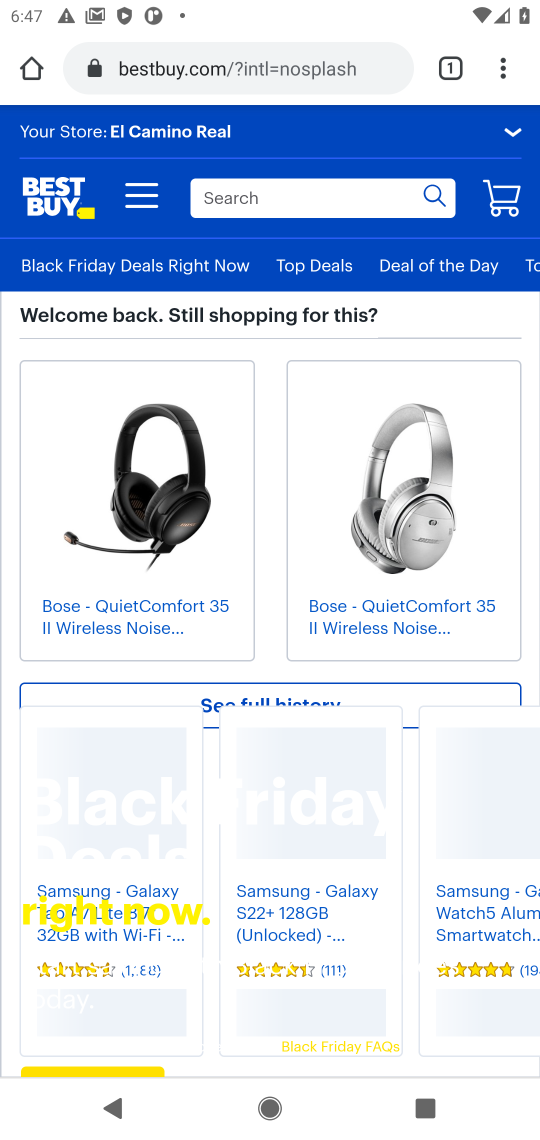
Step 52: click (198, 505)
Your task to perform on an android device: Clear the shopping cart on bestbuy.com. Add "bose quietcomfort 35" to the cart on bestbuy.com, then select checkout. Image 53: 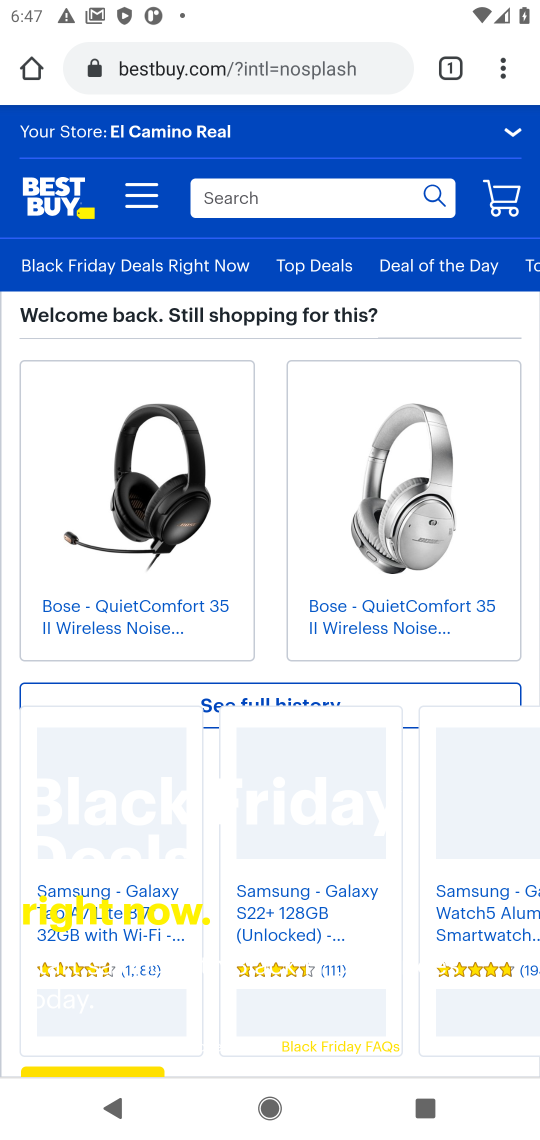
Step 53: click (193, 501)
Your task to perform on an android device: Clear the shopping cart on bestbuy.com. Add "bose quietcomfort 35" to the cart on bestbuy.com, then select checkout. Image 54: 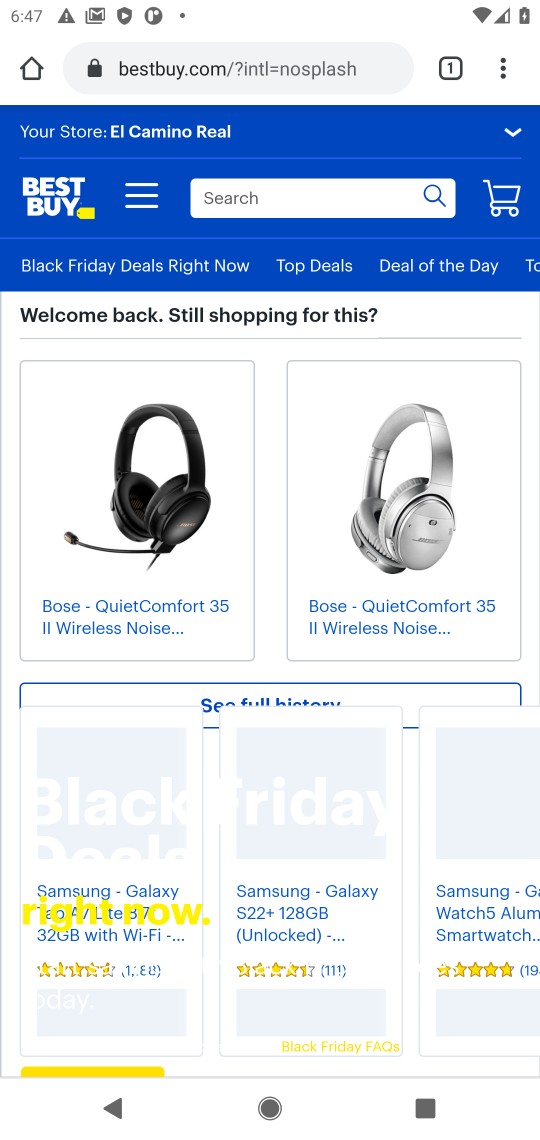
Step 54: click (191, 497)
Your task to perform on an android device: Clear the shopping cart on bestbuy.com. Add "bose quietcomfort 35" to the cart on bestbuy.com, then select checkout. Image 55: 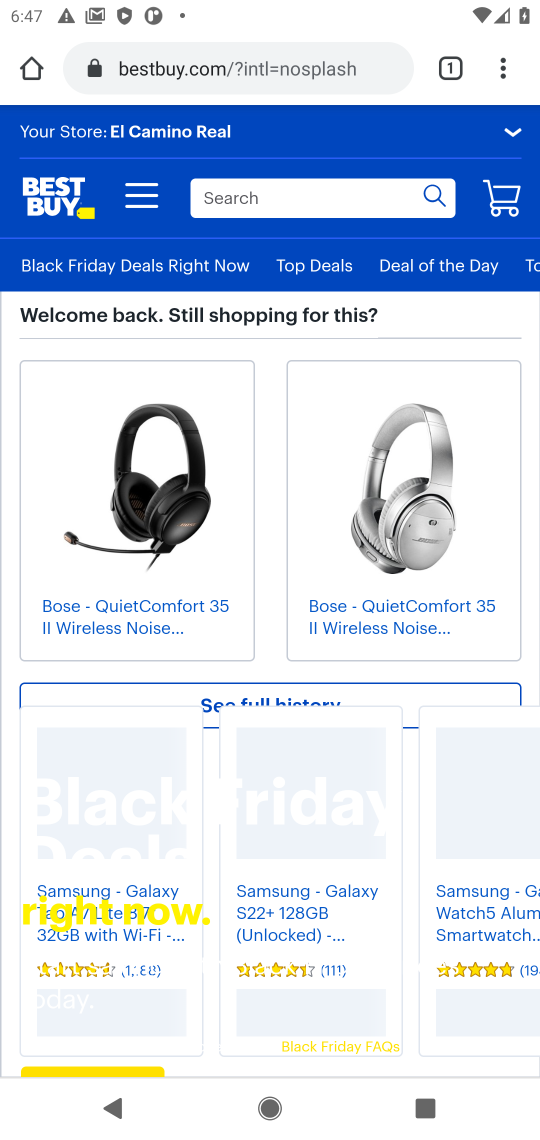
Step 55: click (191, 496)
Your task to perform on an android device: Clear the shopping cart on bestbuy.com. Add "bose quietcomfort 35" to the cart on bestbuy.com, then select checkout. Image 56: 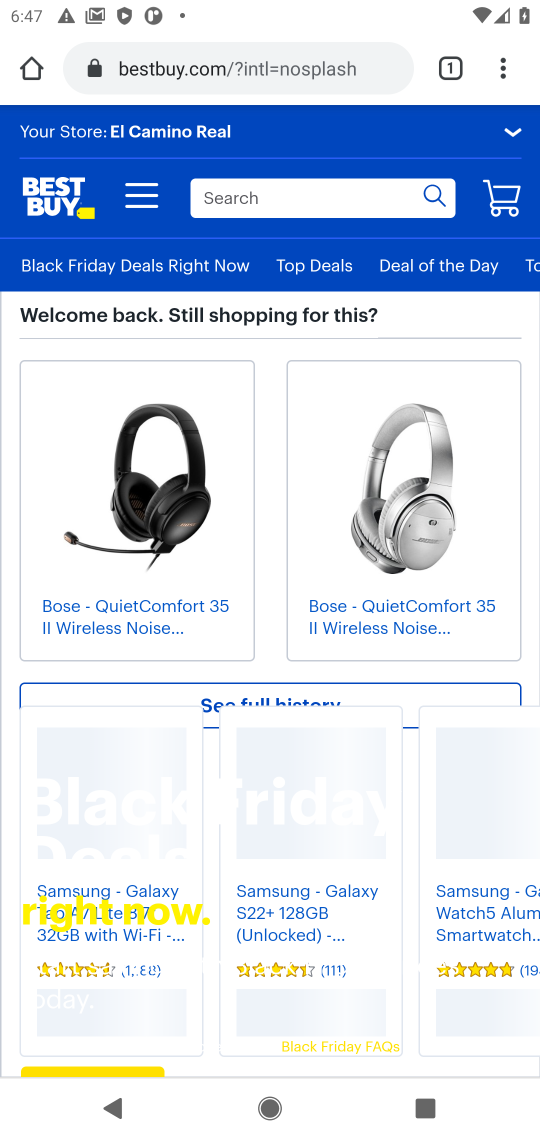
Step 56: click (389, 523)
Your task to perform on an android device: Clear the shopping cart on bestbuy.com. Add "bose quietcomfort 35" to the cart on bestbuy.com, then select checkout. Image 57: 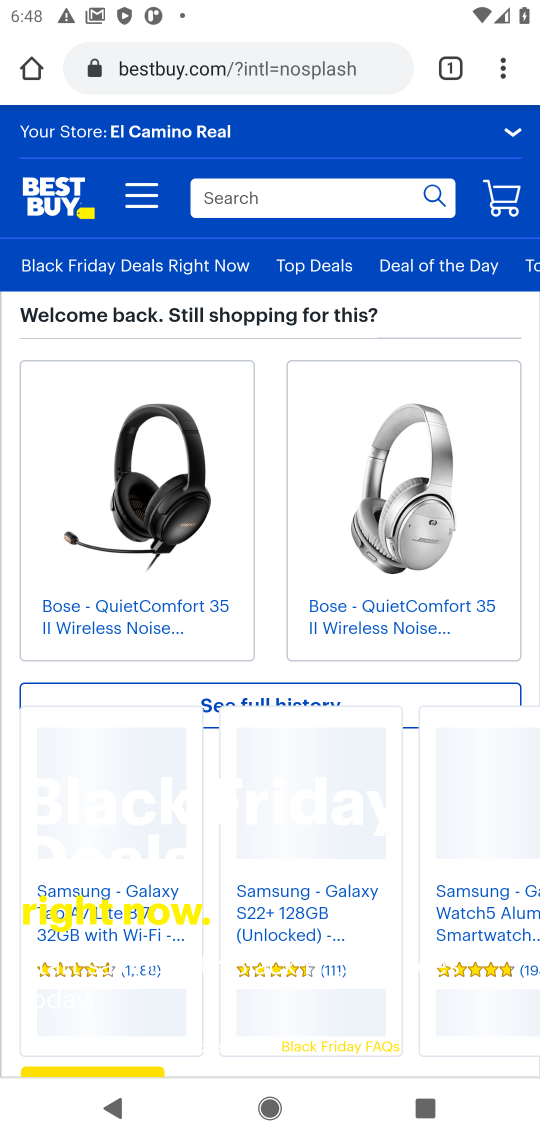
Step 57: click (449, 494)
Your task to perform on an android device: Clear the shopping cart on bestbuy.com. Add "bose quietcomfort 35" to the cart on bestbuy.com, then select checkout. Image 58: 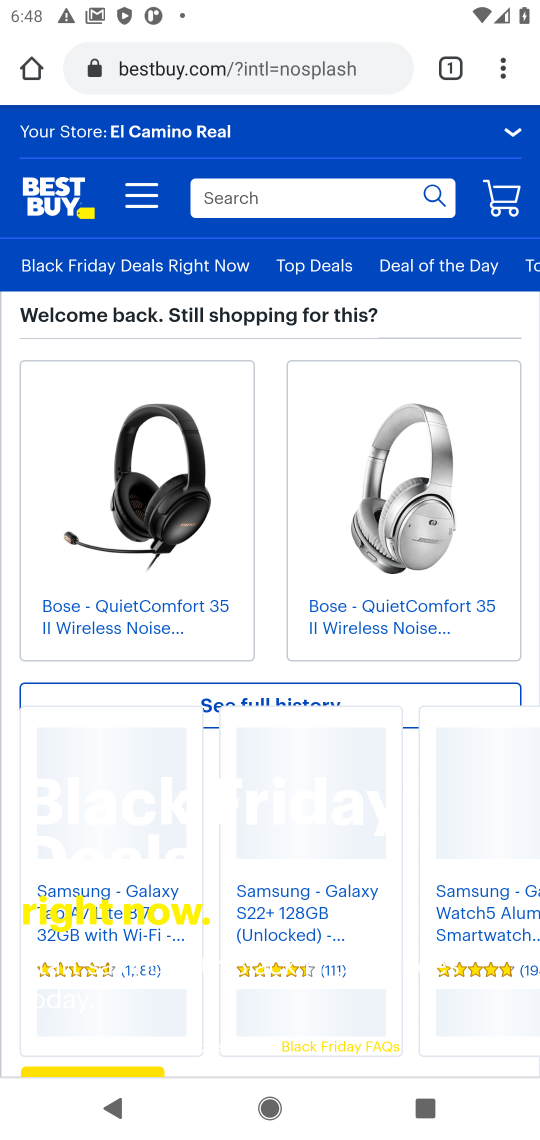
Step 58: click (384, 601)
Your task to perform on an android device: Clear the shopping cart on bestbuy.com. Add "bose quietcomfort 35" to the cart on bestbuy.com, then select checkout. Image 59: 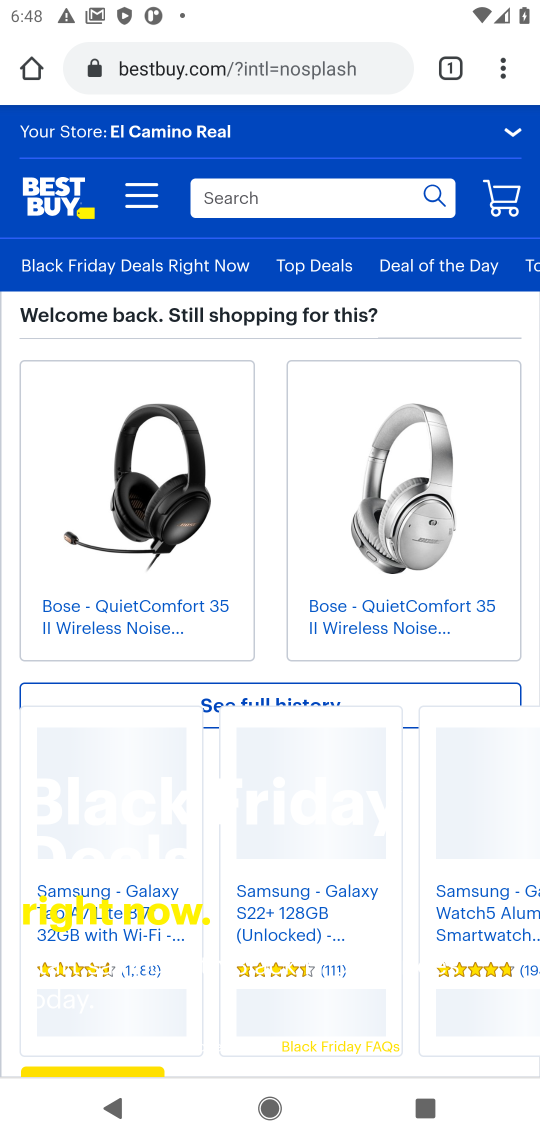
Step 59: task complete